Your task to perform on an android device: turn on notifications settings in the gmail app Image 0: 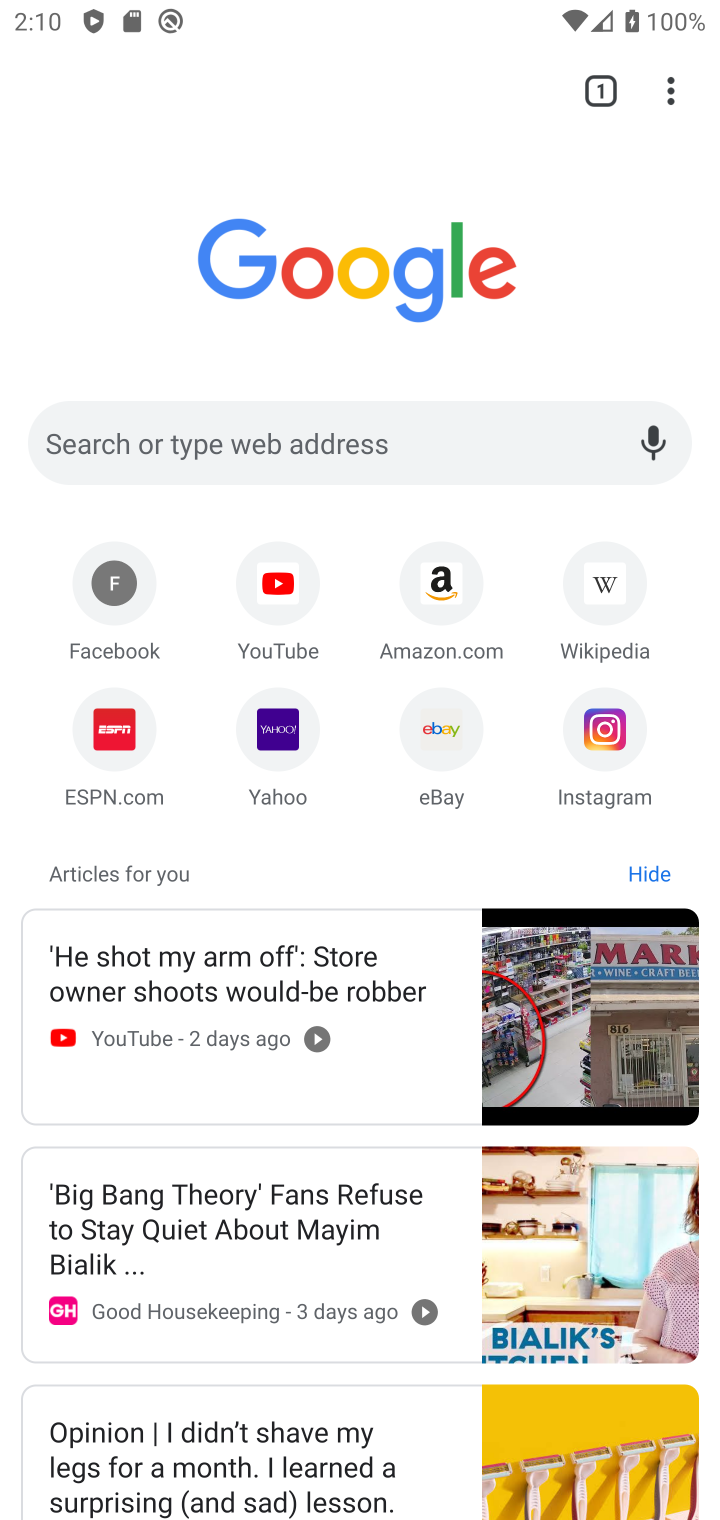
Step 0: press back button
Your task to perform on an android device: turn on notifications settings in the gmail app Image 1: 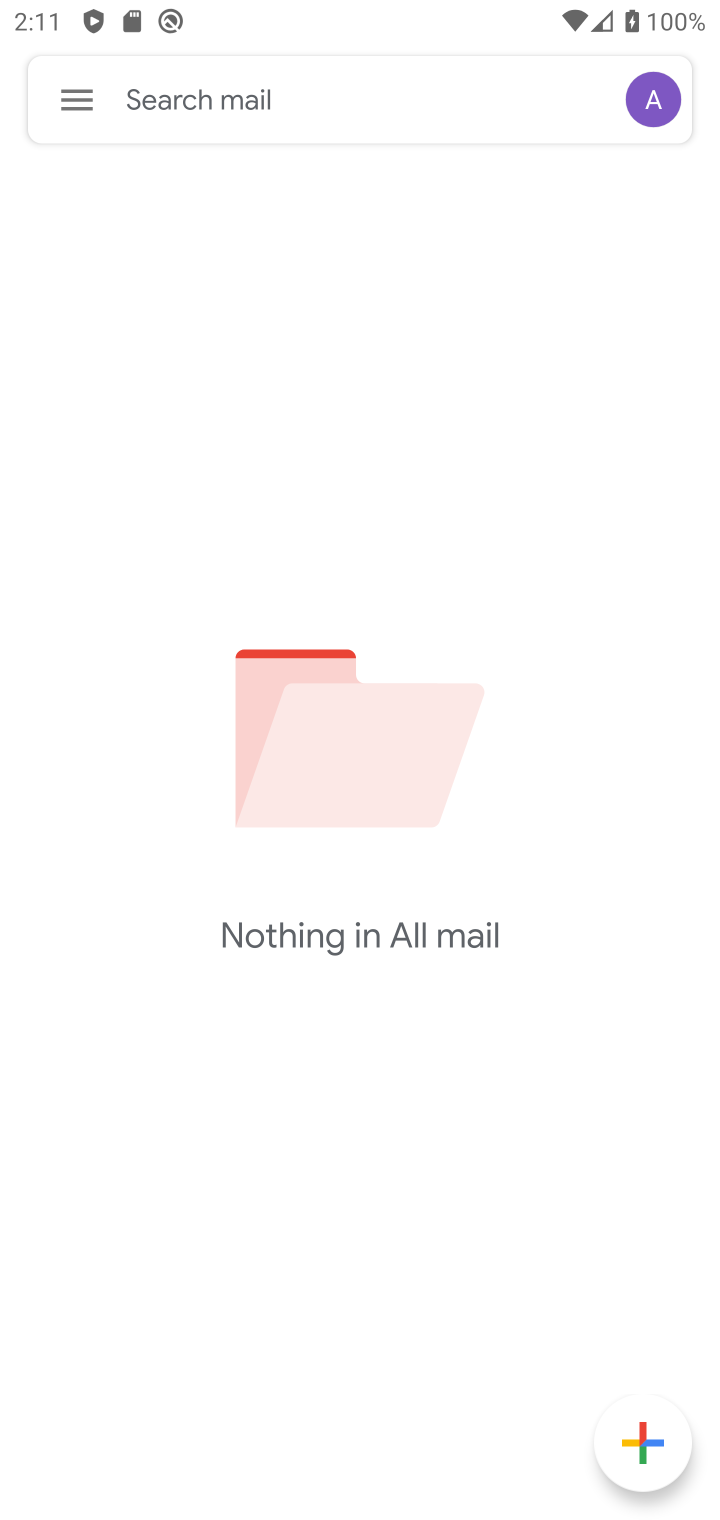
Step 1: click (48, 82)
Your task to perform on an android device: turn on notifications settings in the gmail app Image 2: 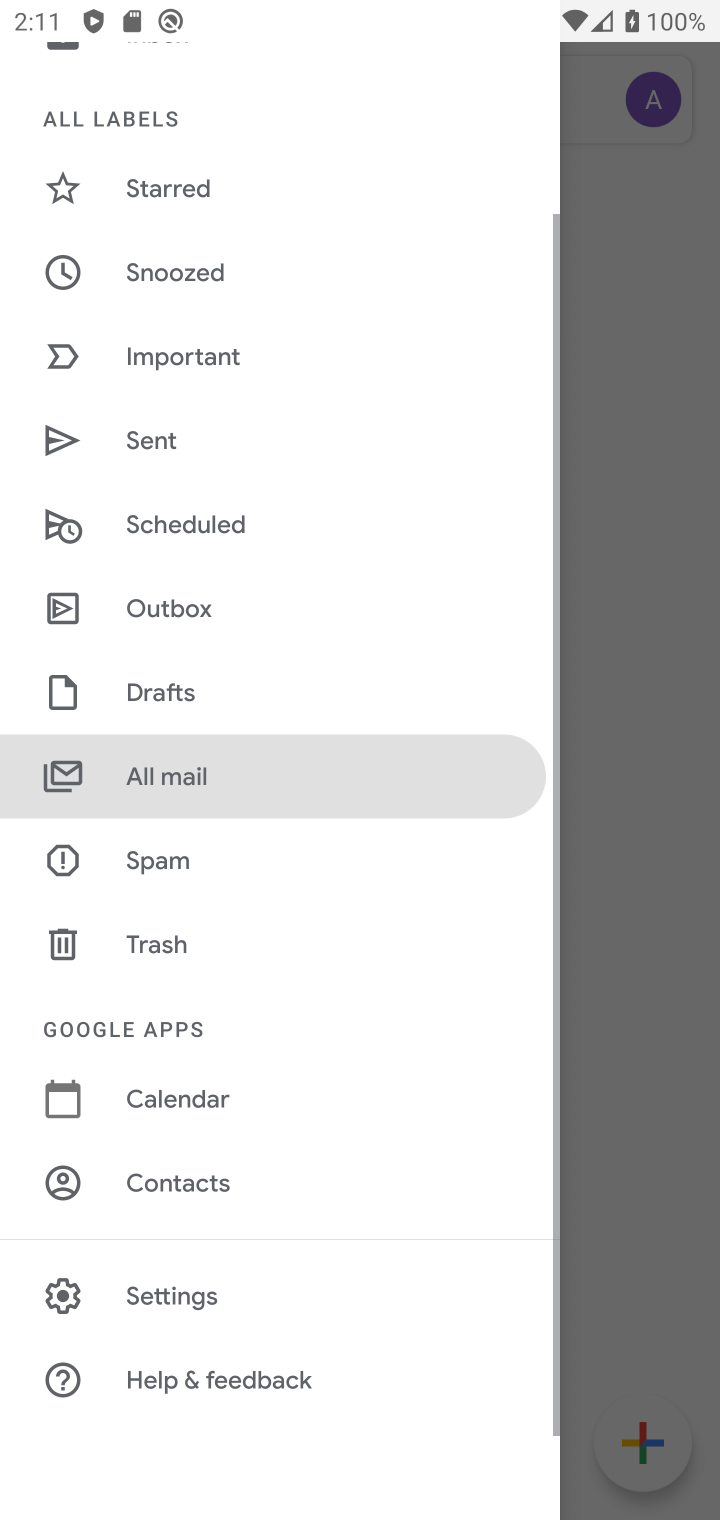
Step 2: press back button
Your task to perform on an android device: turn on notifications settings in the gmail app Image 3: 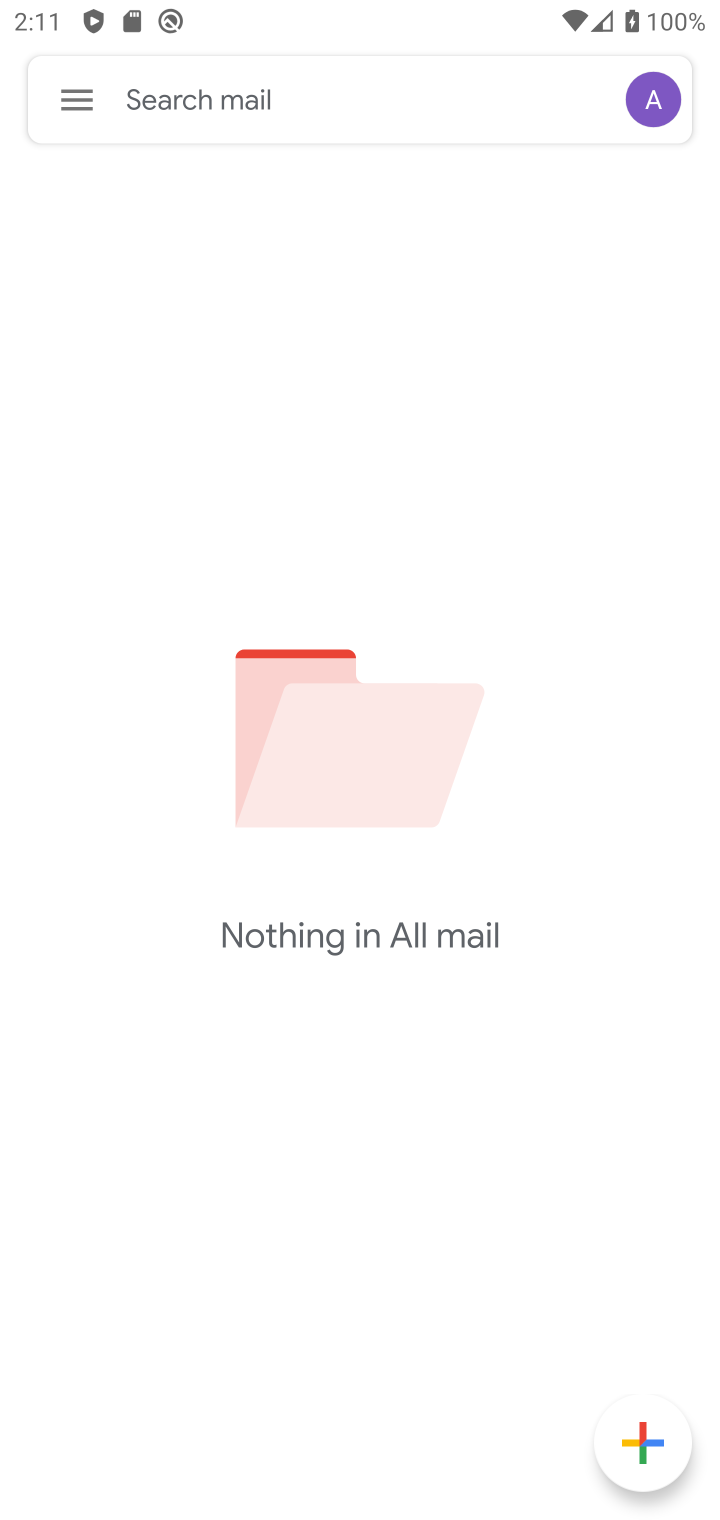
Step 3: click (62, 96)
Your task to perform on an android device: turn on notifications settings in the gmail app Image 4: 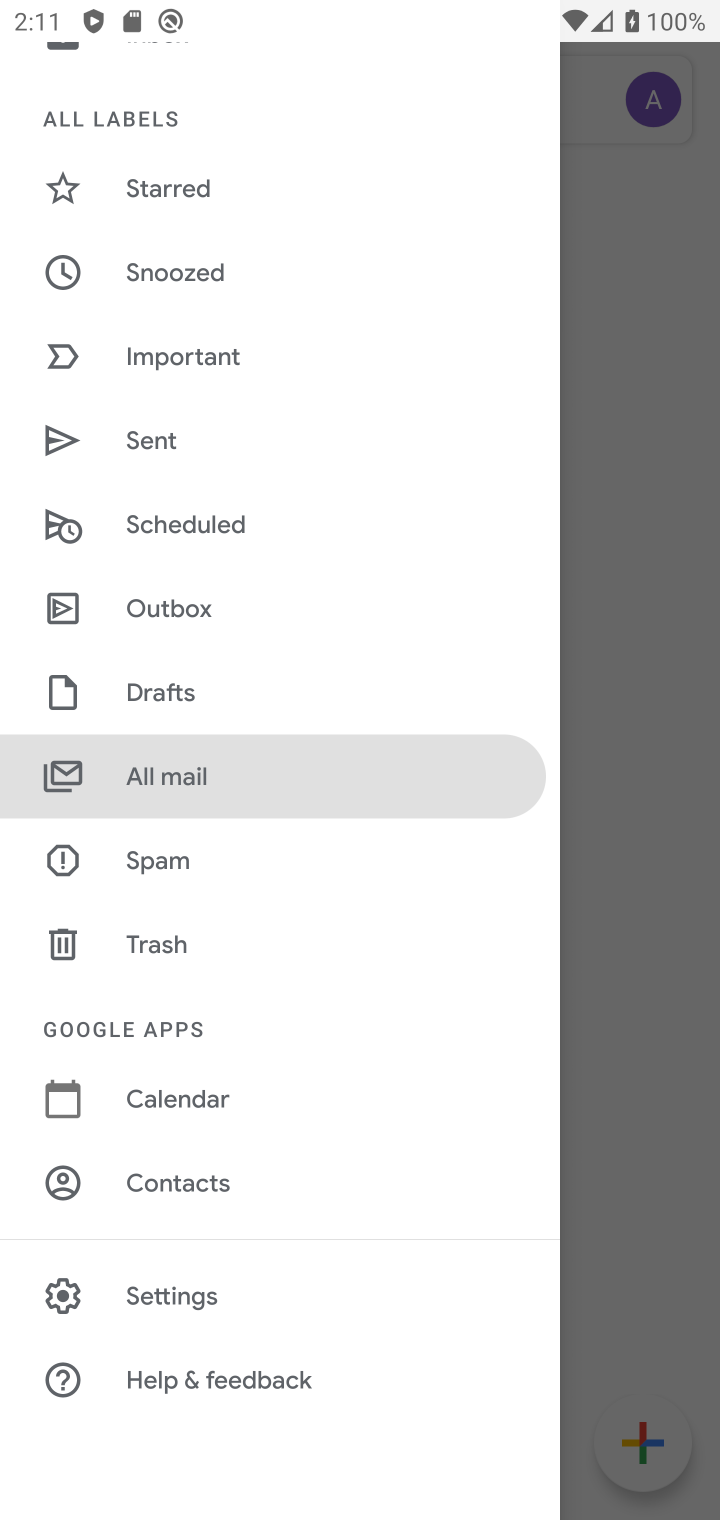
Step 4: click (600, 748)
Your task to perform on an android device: turn on notifications settings in the gmail app Image 5: 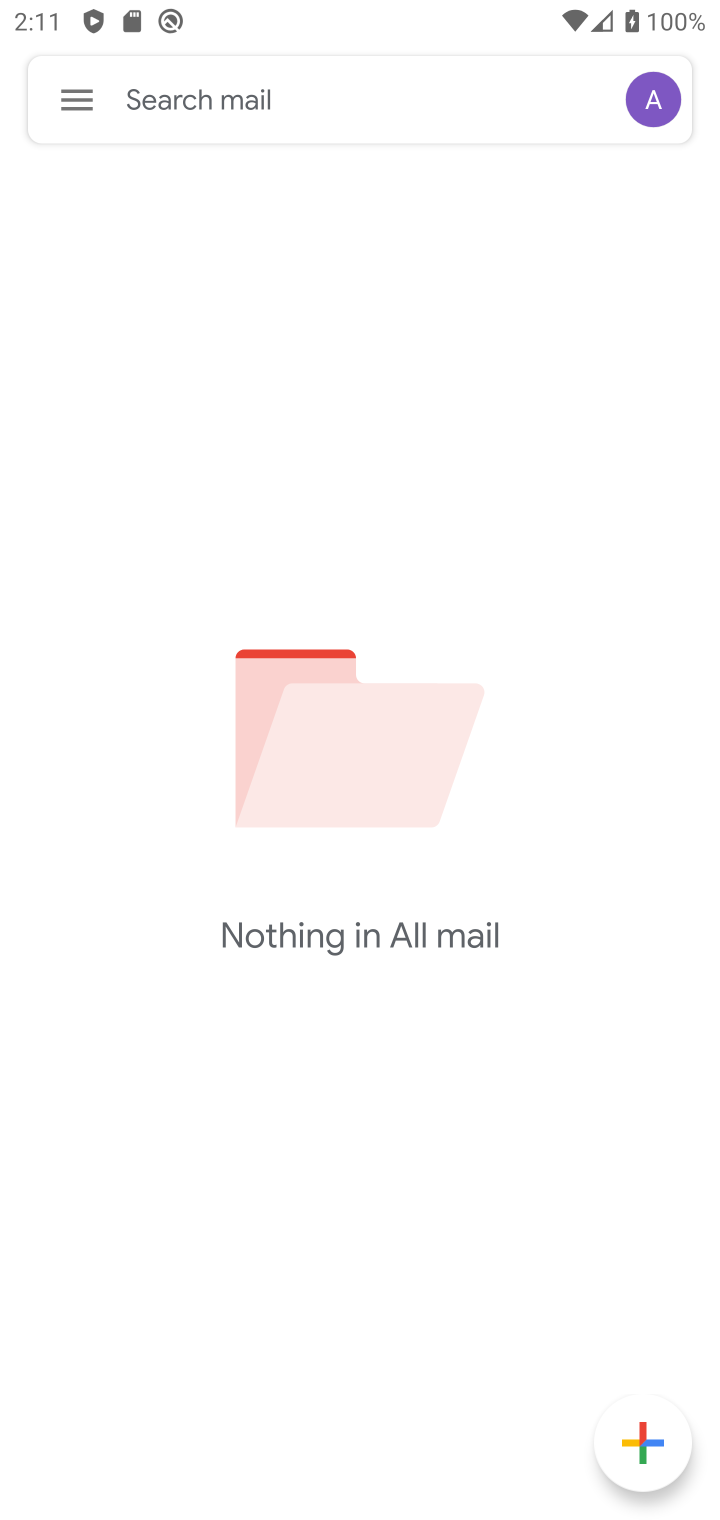
Step 5: press back button
Your task to perform on an android device: turn on notifications settings in the gmail app Image 6: 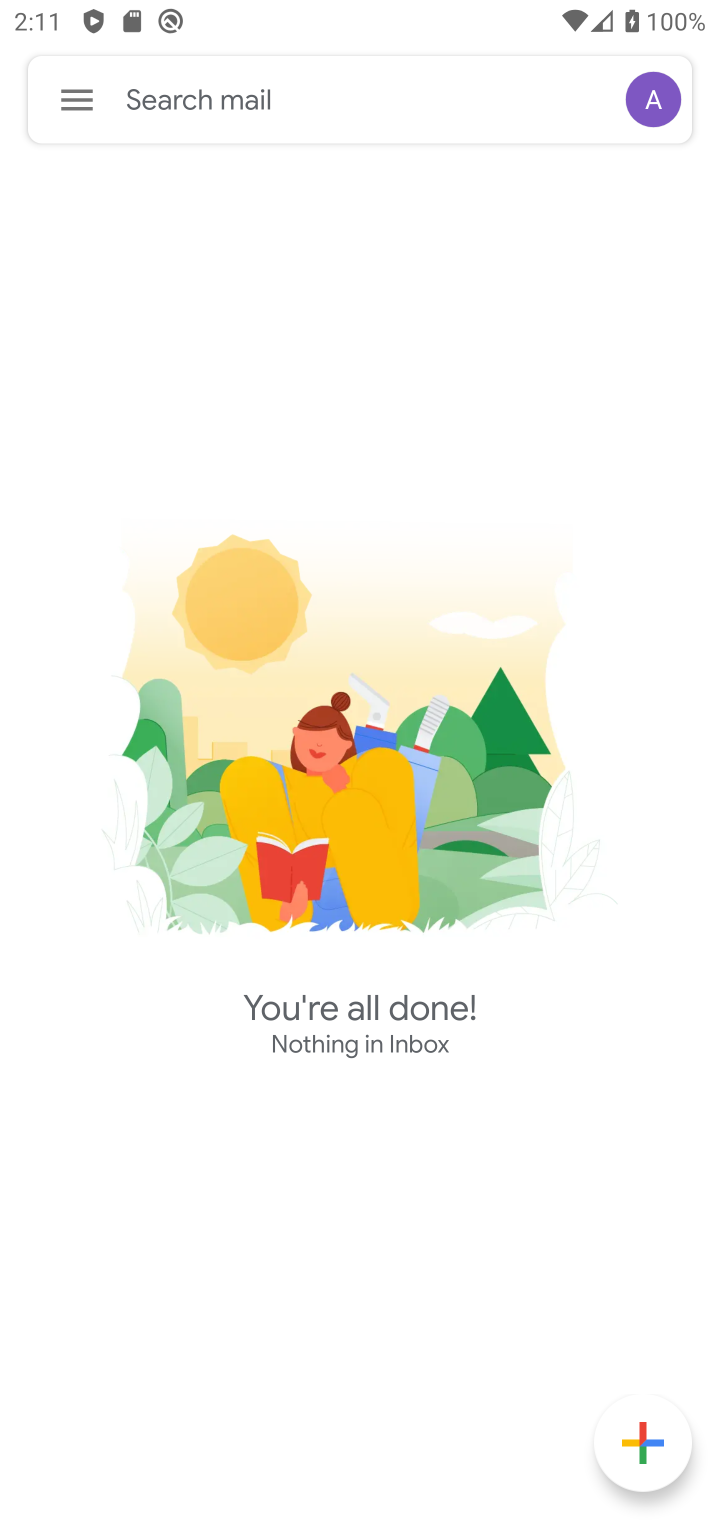
Step 6: press back button
Your task to perform on an android device: turn on notifications settings in the gmail app Image 7: 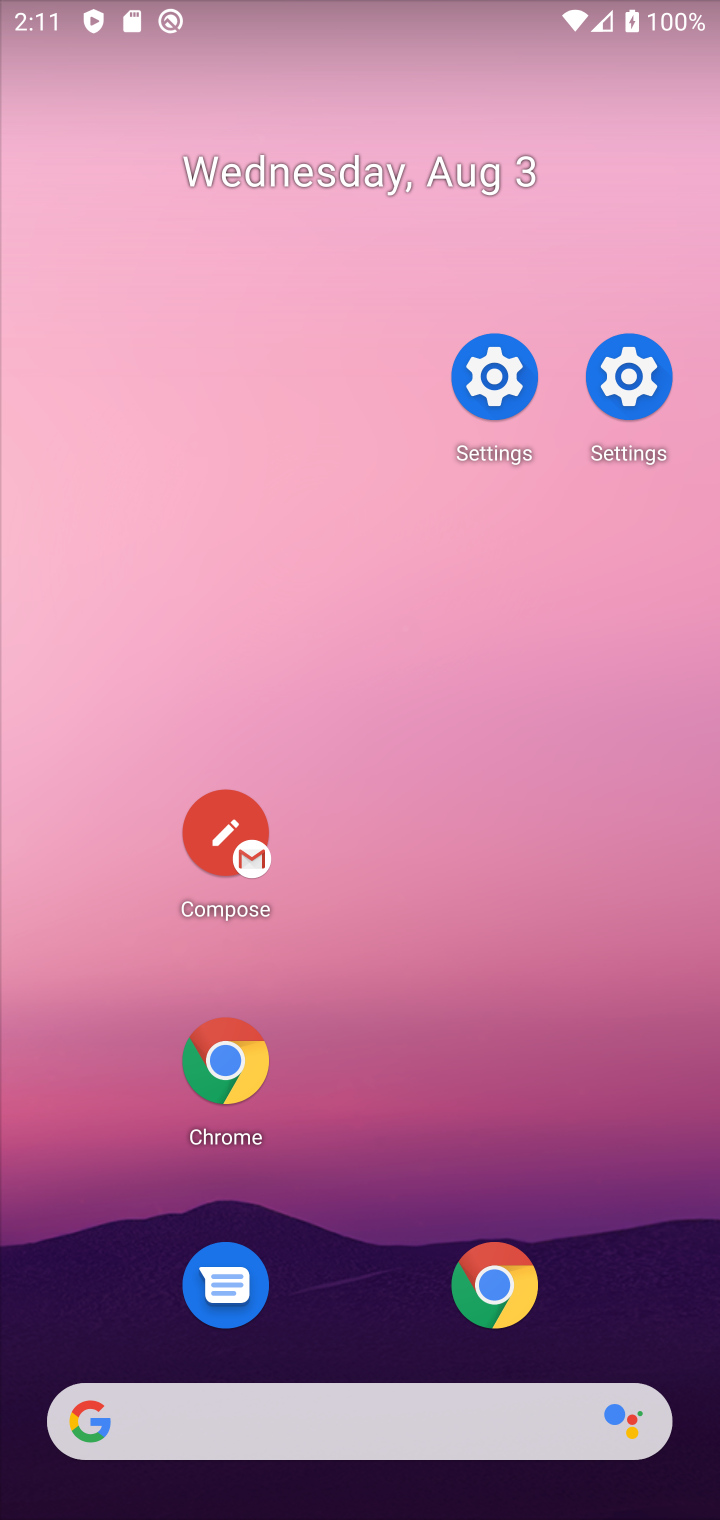
Step 7: drag from (231, 531) to (395, 239)
Your task to perform on an android device: turn on notifications settings in the gmail app Image 8: 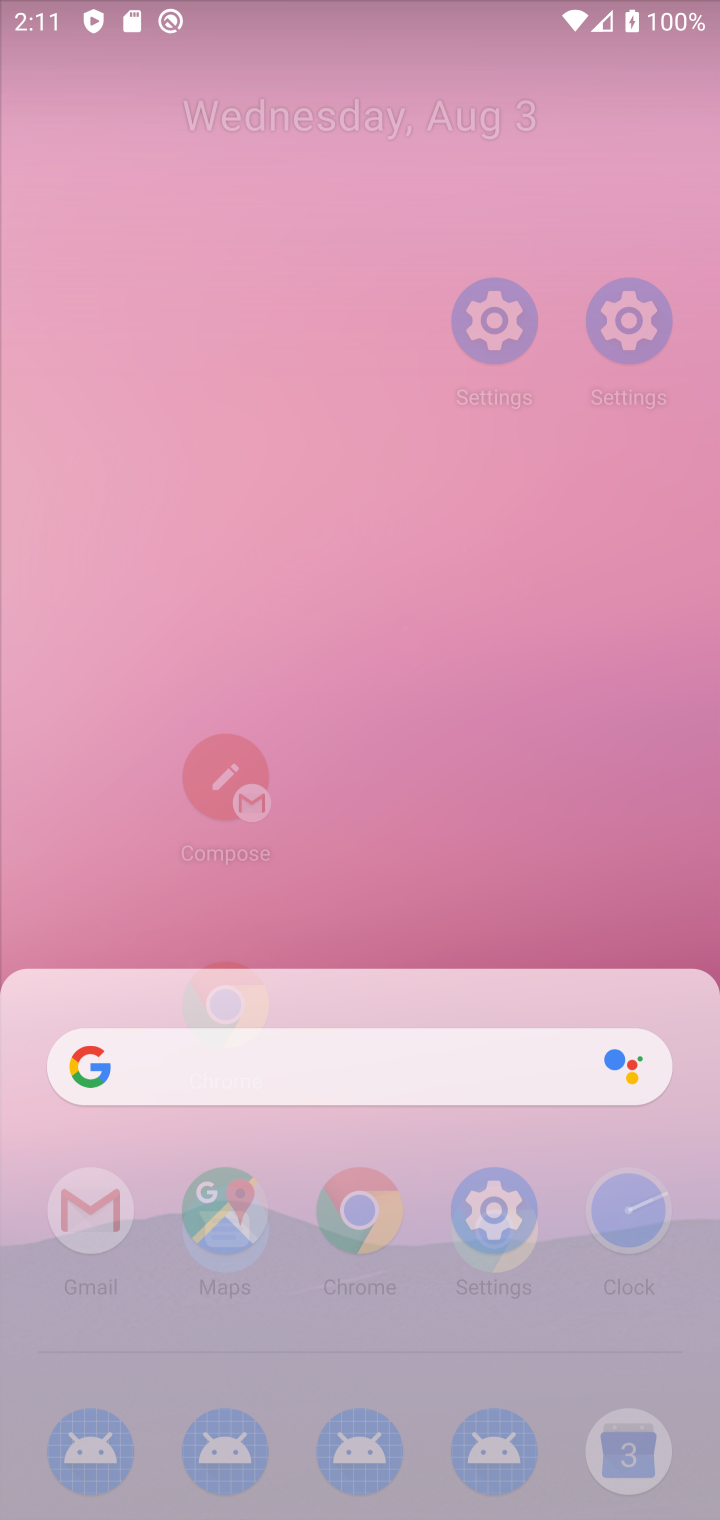
Step 8: click (261, 300)
Your task to perform on an android device: turn on notifications settings in the gmail app Image 9: 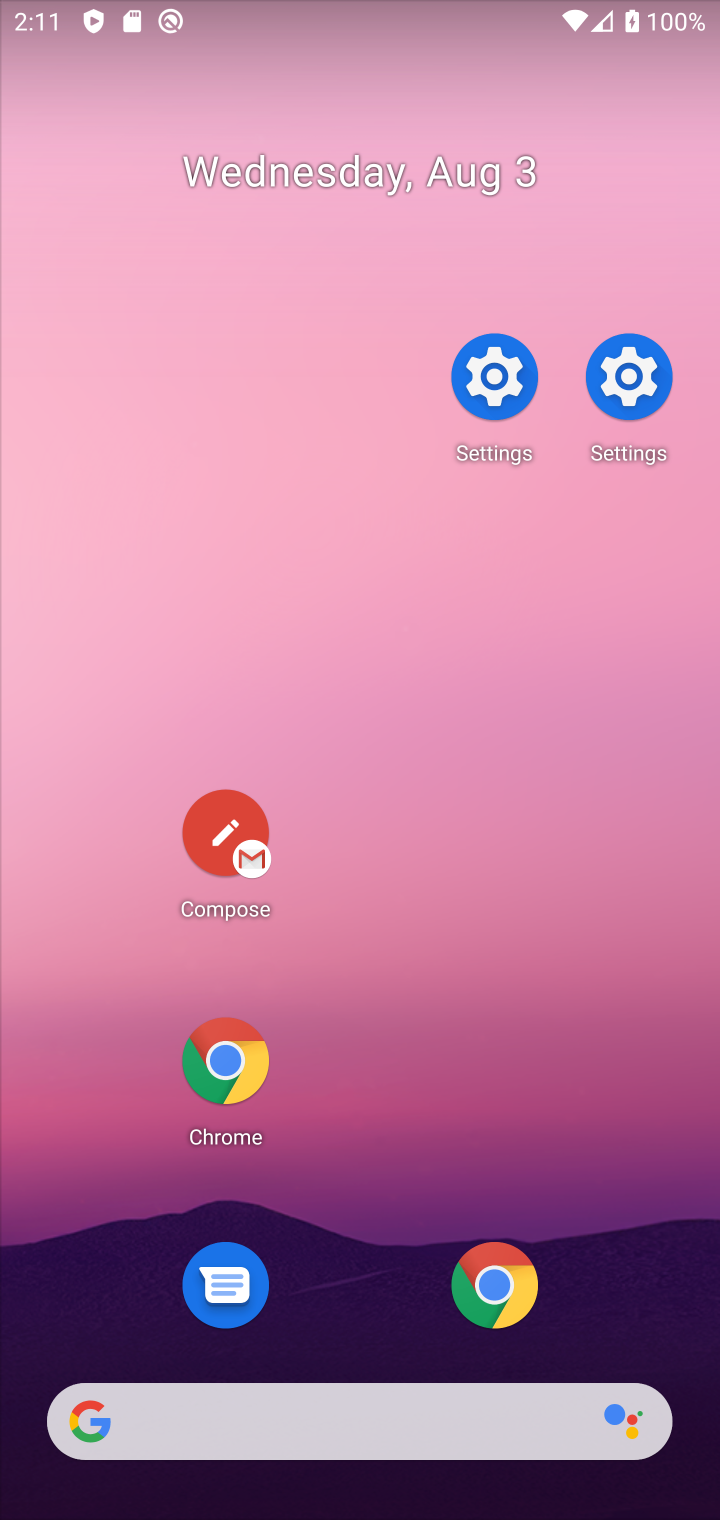
Step 9: drag from (245, 718) to (274, 112)
Your task to perform on an android device: turn on notifications settings in the gmail app Image 10: 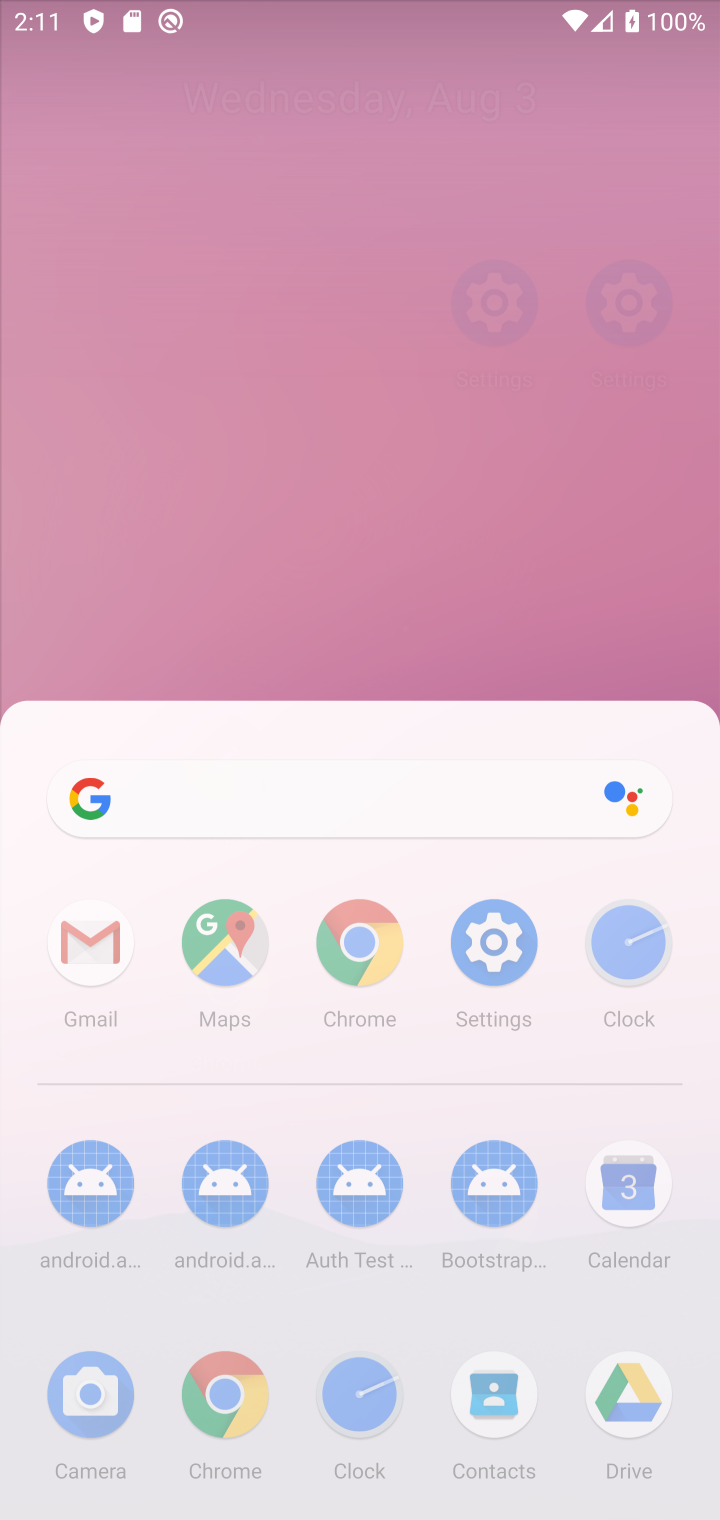
Step 10: drag from (285, 667) to (307, 304)
Your task to perform on an android device: turn on notifications settings in the gmail app Image 11: 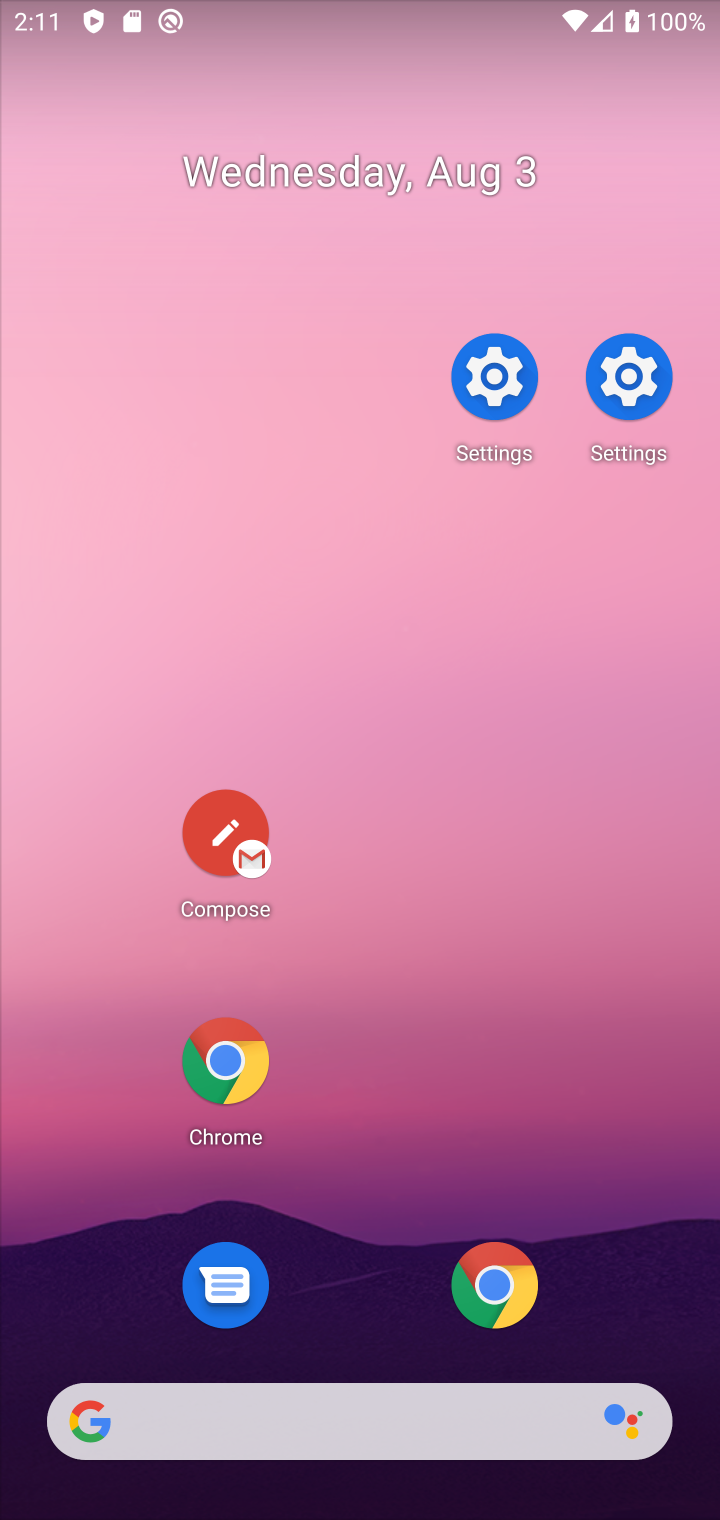
Step 11: drag from (269, 447) to (412, 341)
Your task to perform on an android device: turn on notifications settings in the gmail app Image 12: 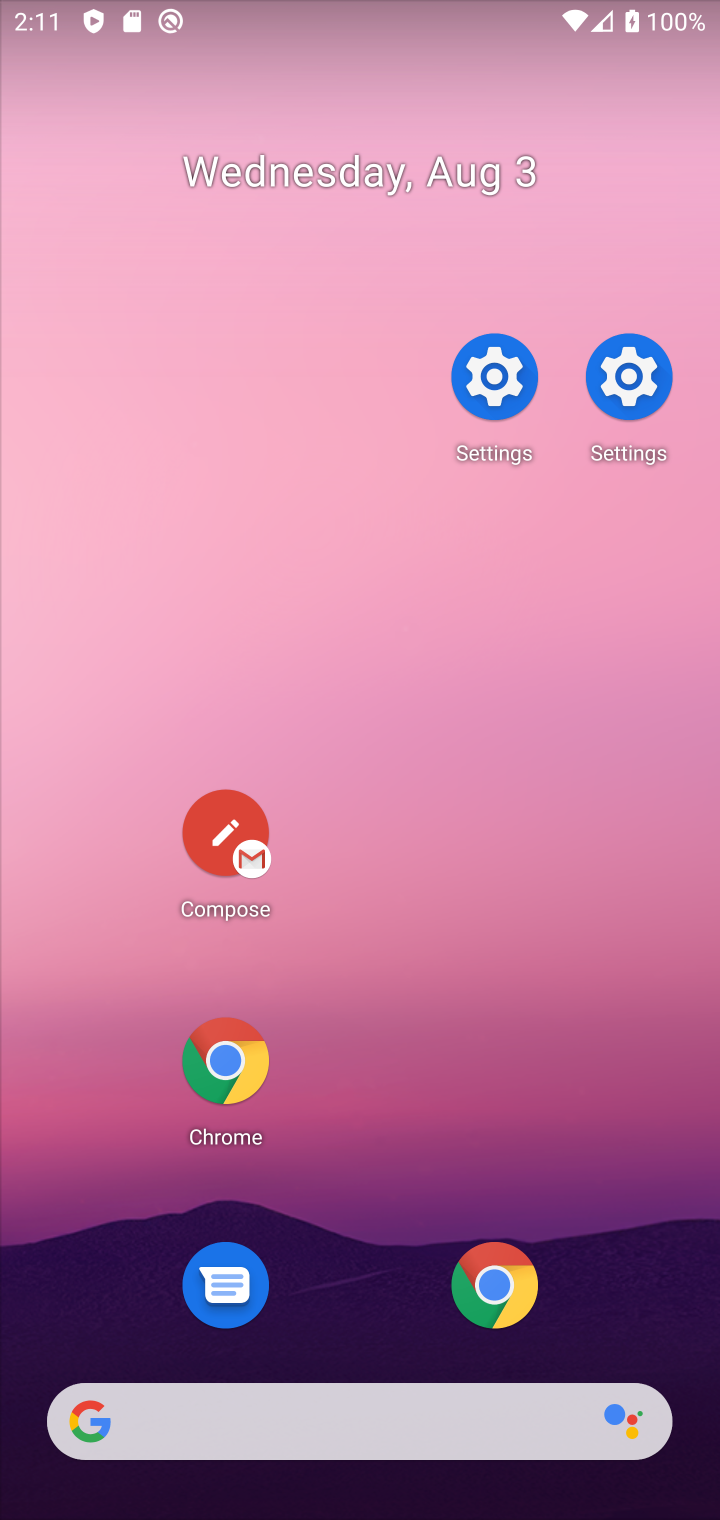
Step 12: drag from (52, 339) to (206, 341)
Your task to perform on an android device: turn on notifications settings in the gmail app Image 13: 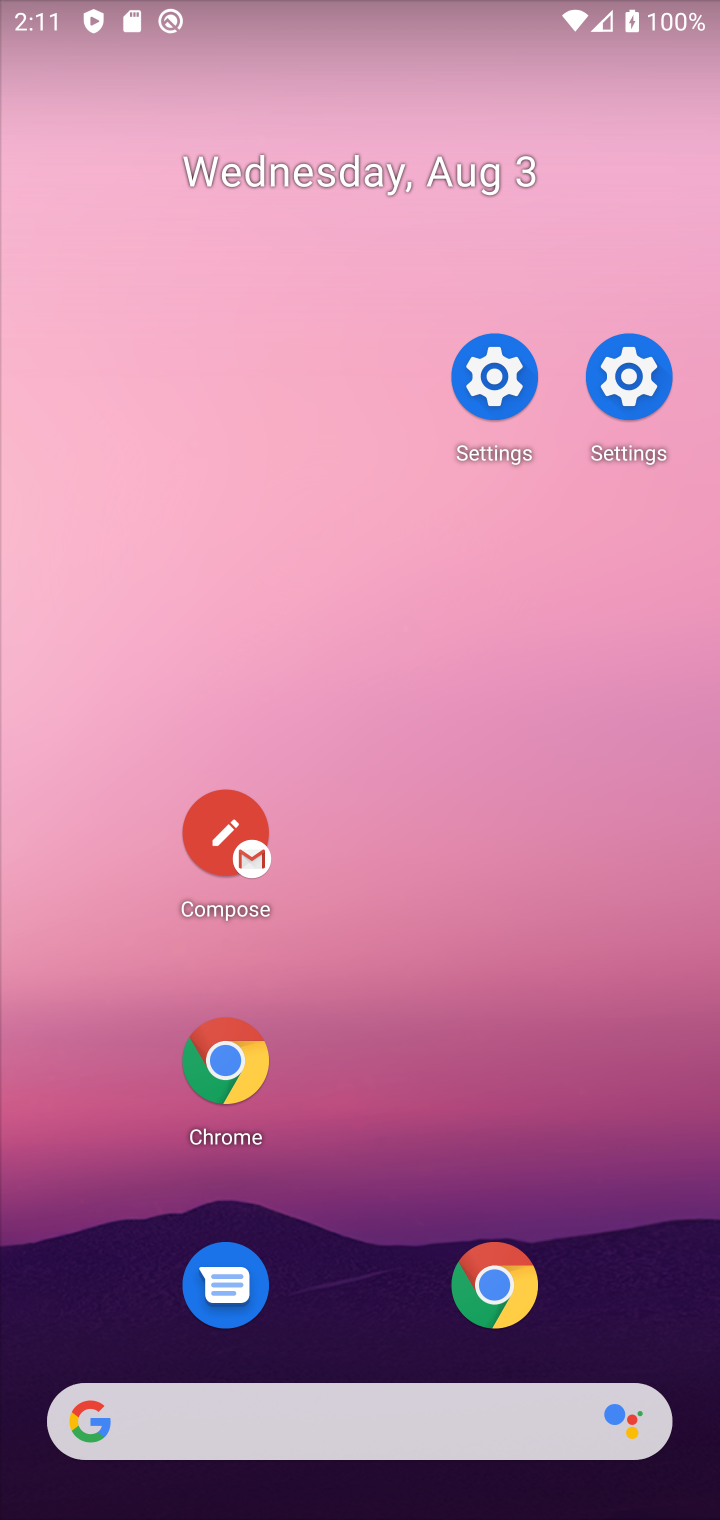
Step 13: drag from (264, 147) to (351, 516)
Your task to perform on an android device: turn on notifications settings in the gmail app Image 14: 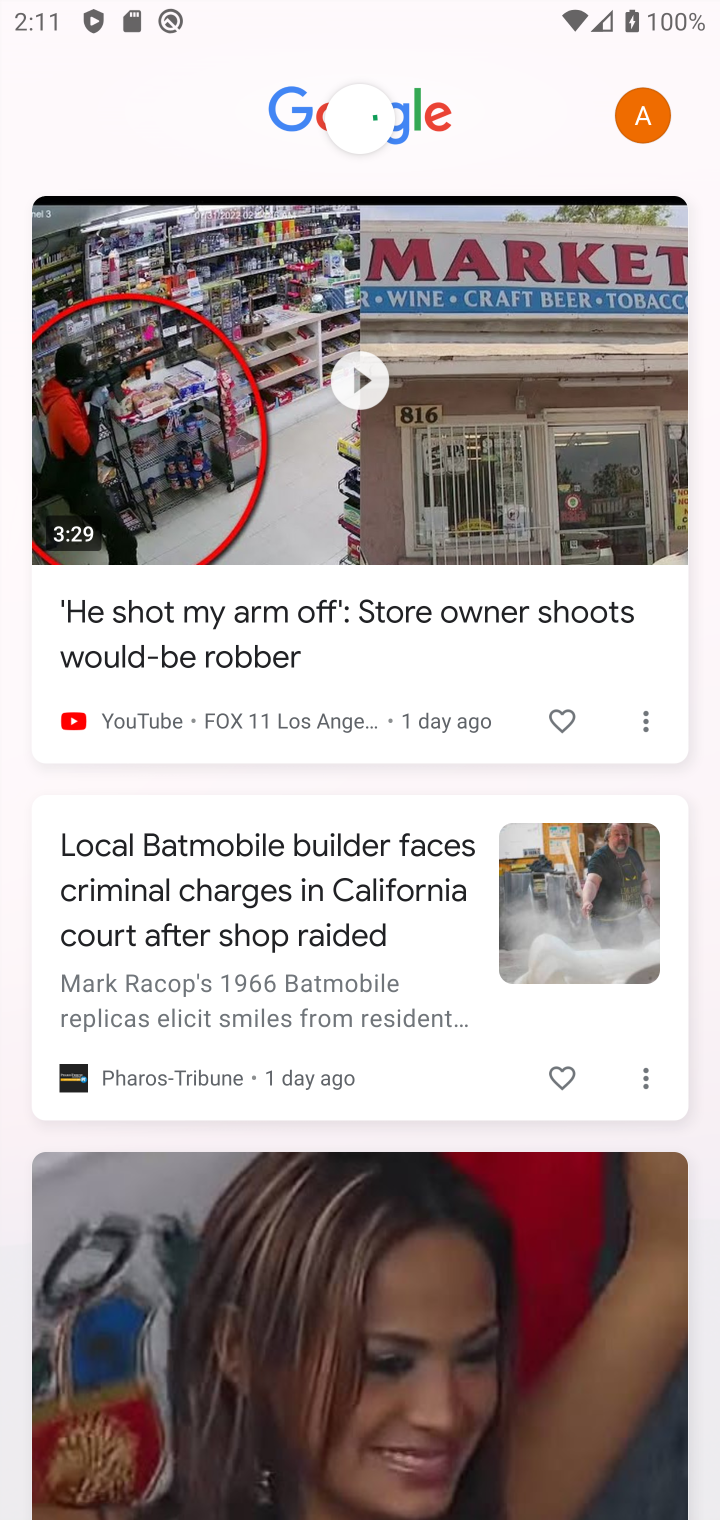
Step 14: press back button
Your task to perform on an android device: turn on notifications settings in the gmail app Image 15: 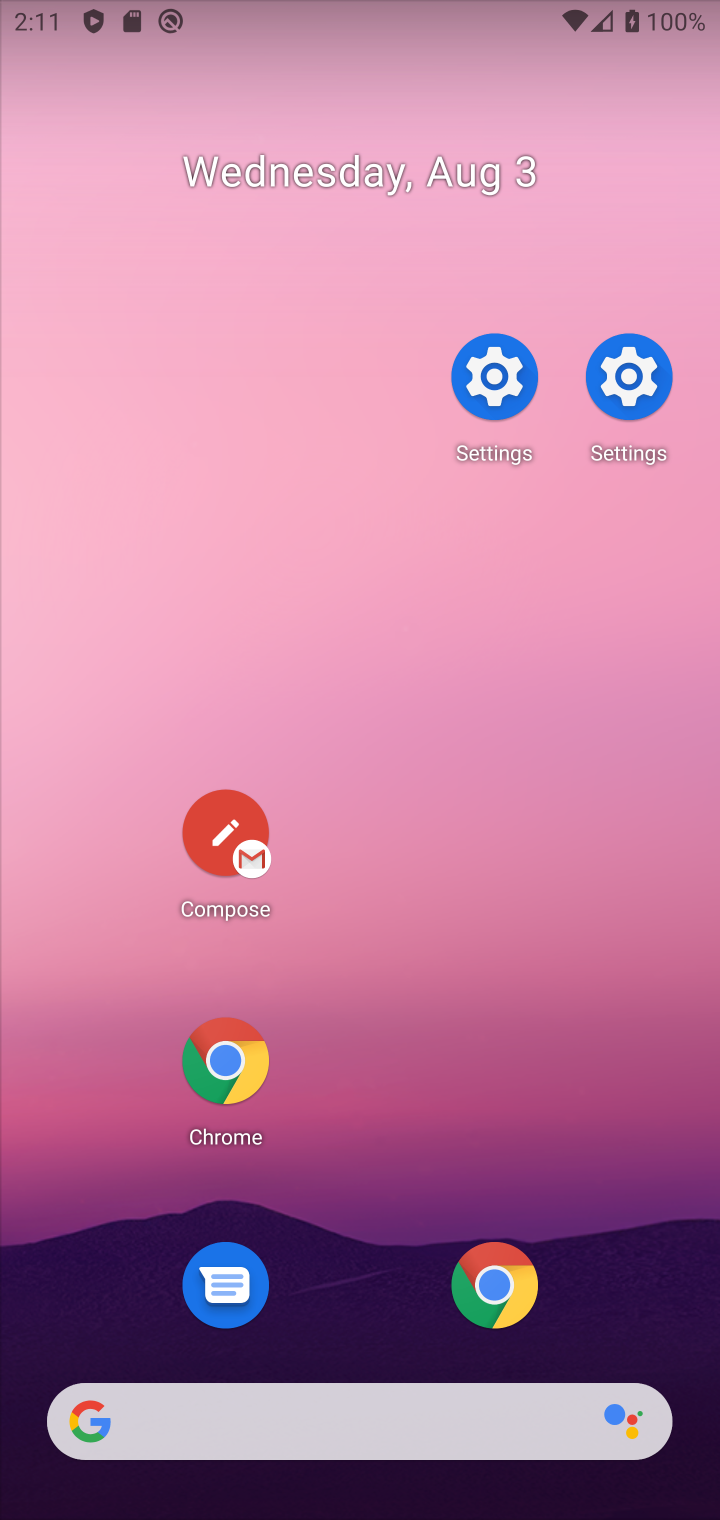
Step 15: press back button
Your task to perform on an android device: turn on notifications settings in the gmail app Image 16: 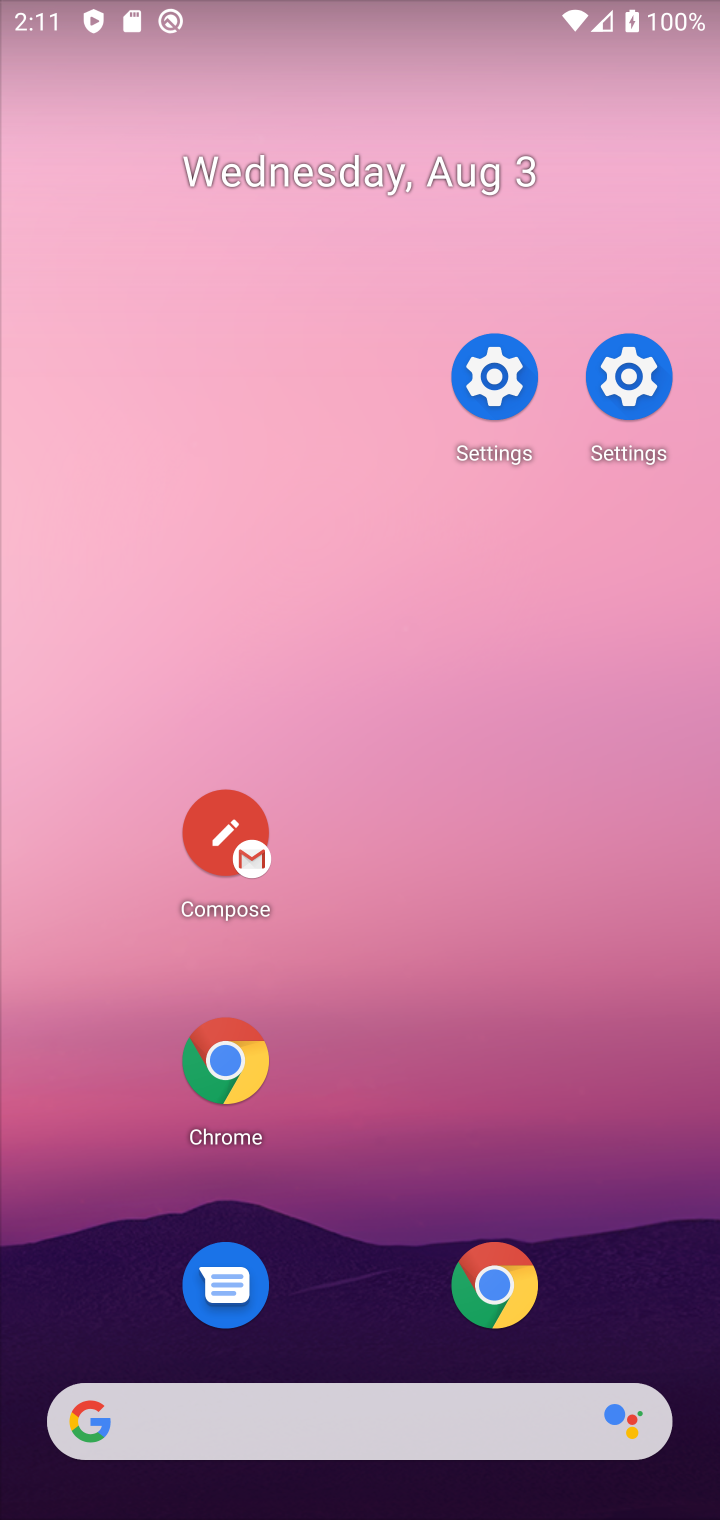
Step 16: press home button
Your task to perform on an android device: turn on notifications settings in the gmail app Image 17: 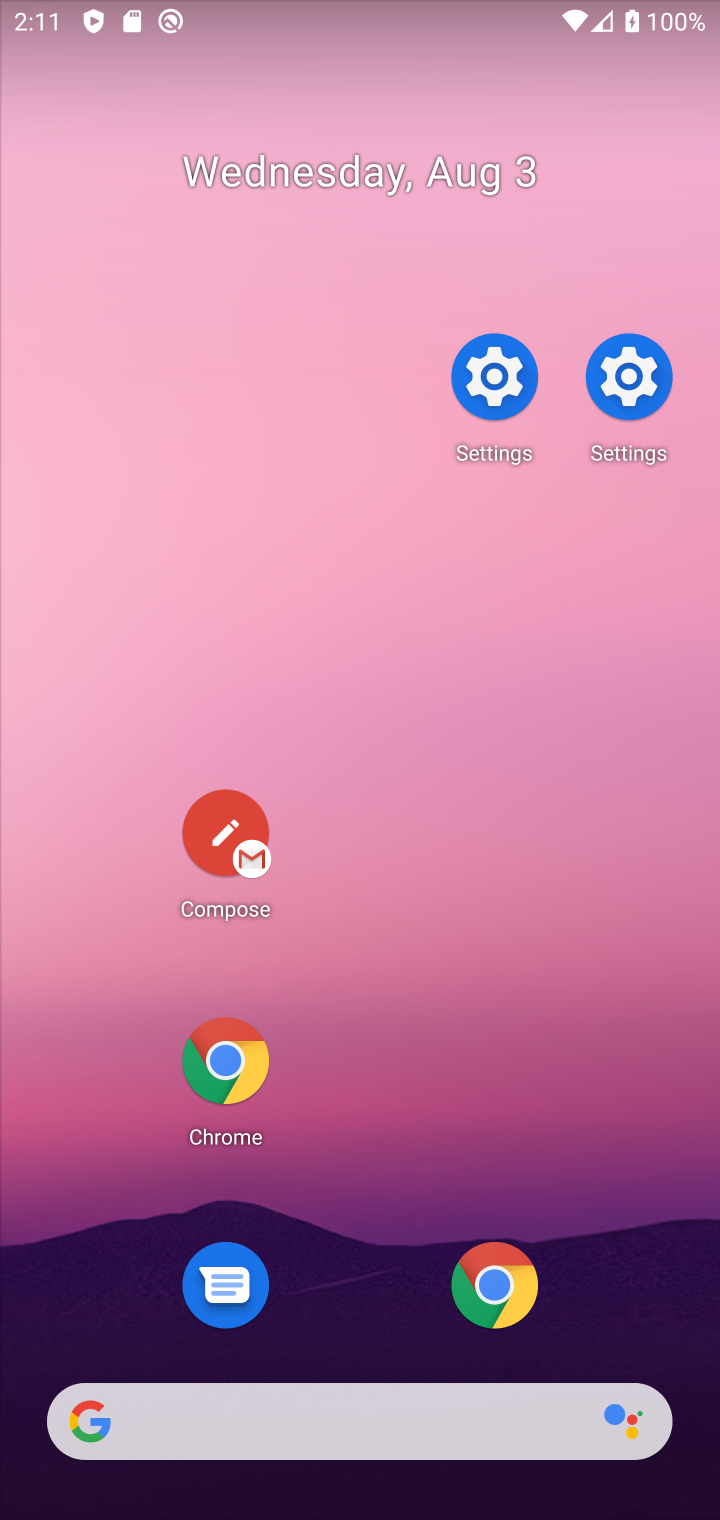
Step 17: drag from (261, 369) to (415, 286)
Your task to perform on an android device: turn on notifications settings in the gmail app Image 18: 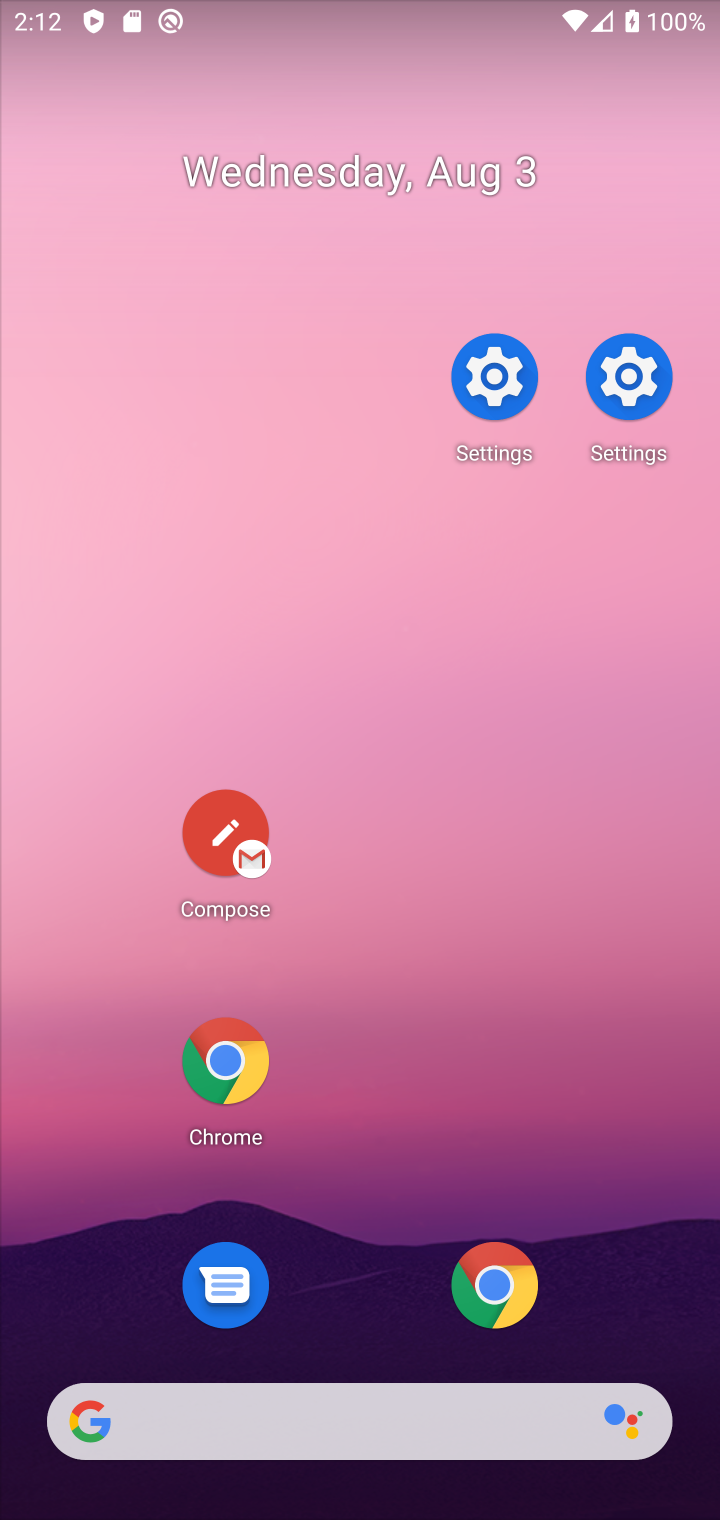
Step 18: click (303, 264)
Your task to perform on an android device: turn on notifications settings in the gmail app Image 19: 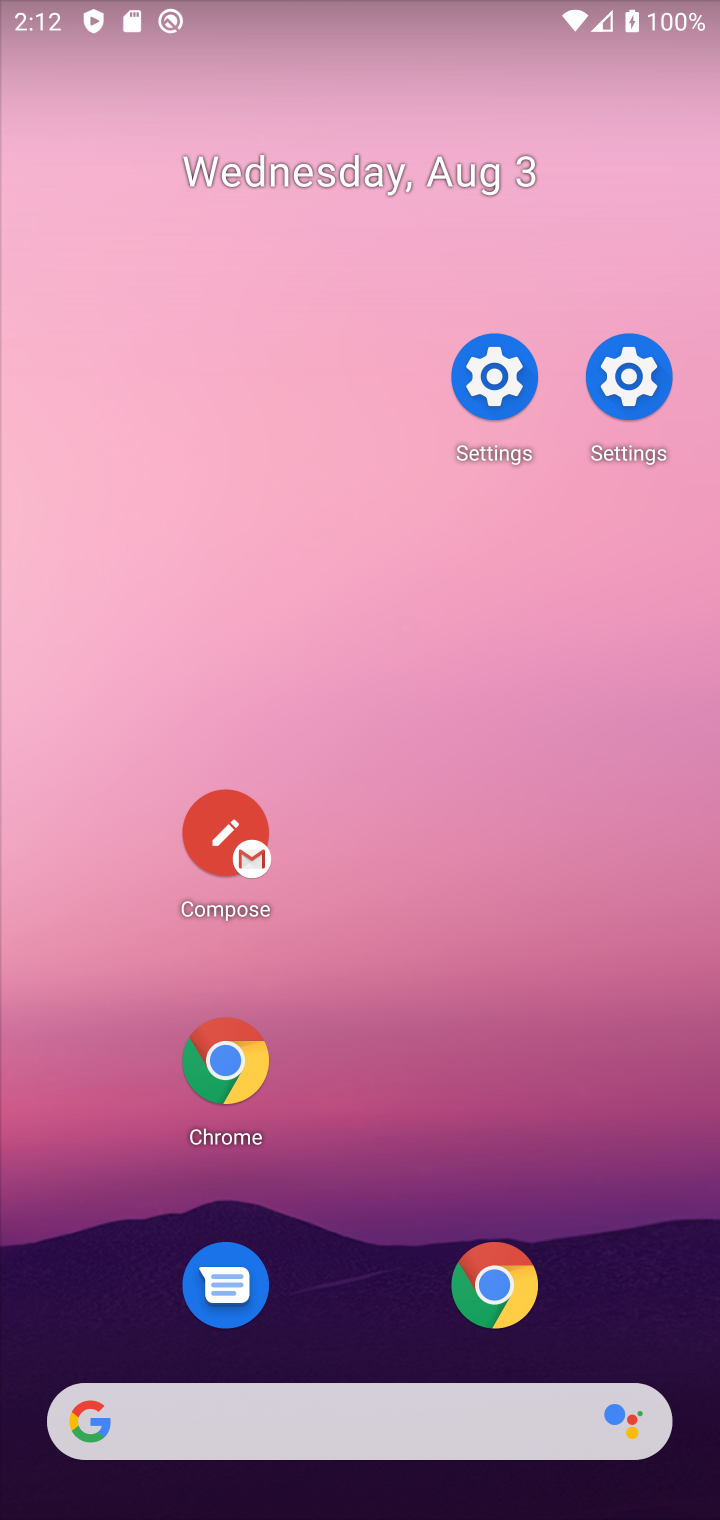
Step 19: drag from (288, 271) to (152, 75)
Your task to perform on an android device: turn on notifications settings in the gmail app Image 20: 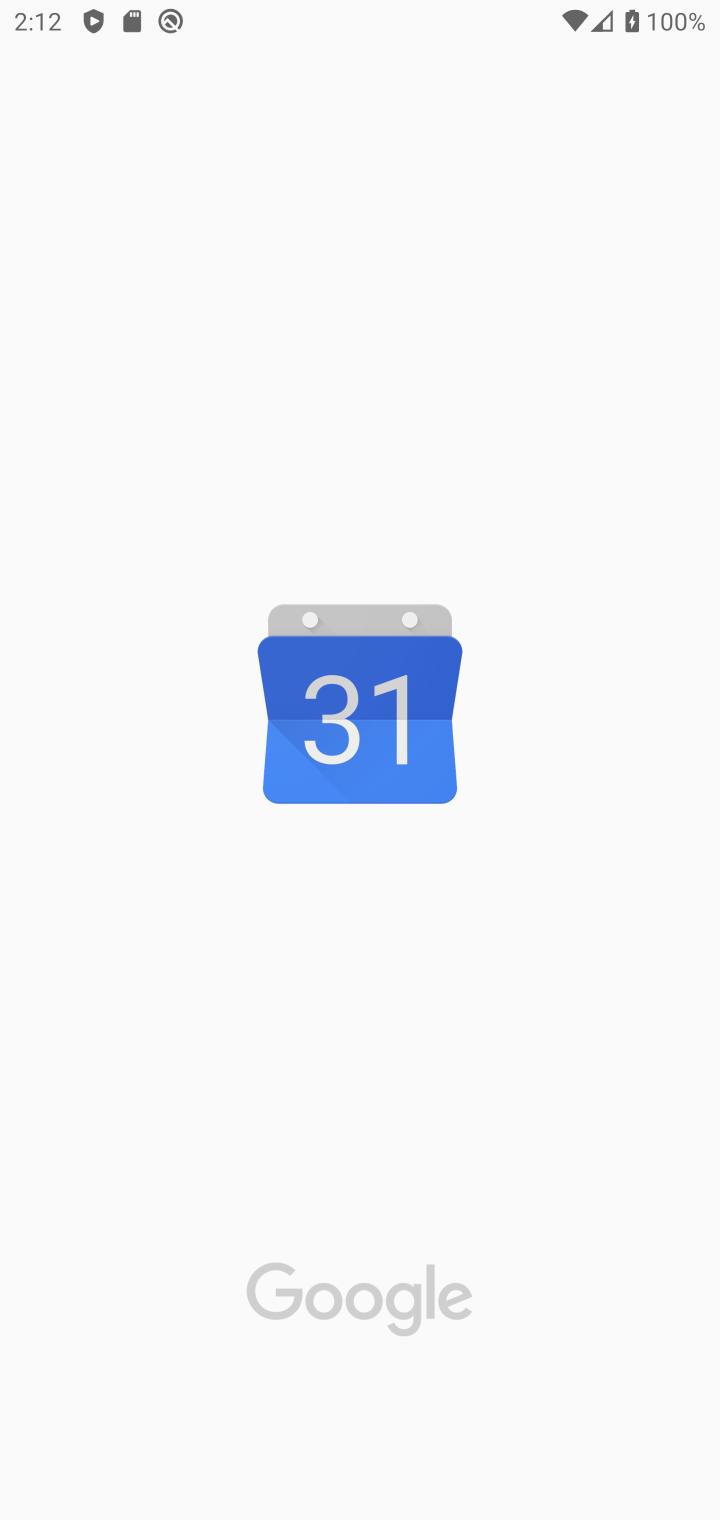
Step 20: drag from (356, 764) to (251, 324)
Your task to perform on an android device: turn on notifications settings in the gmail app Image 21: 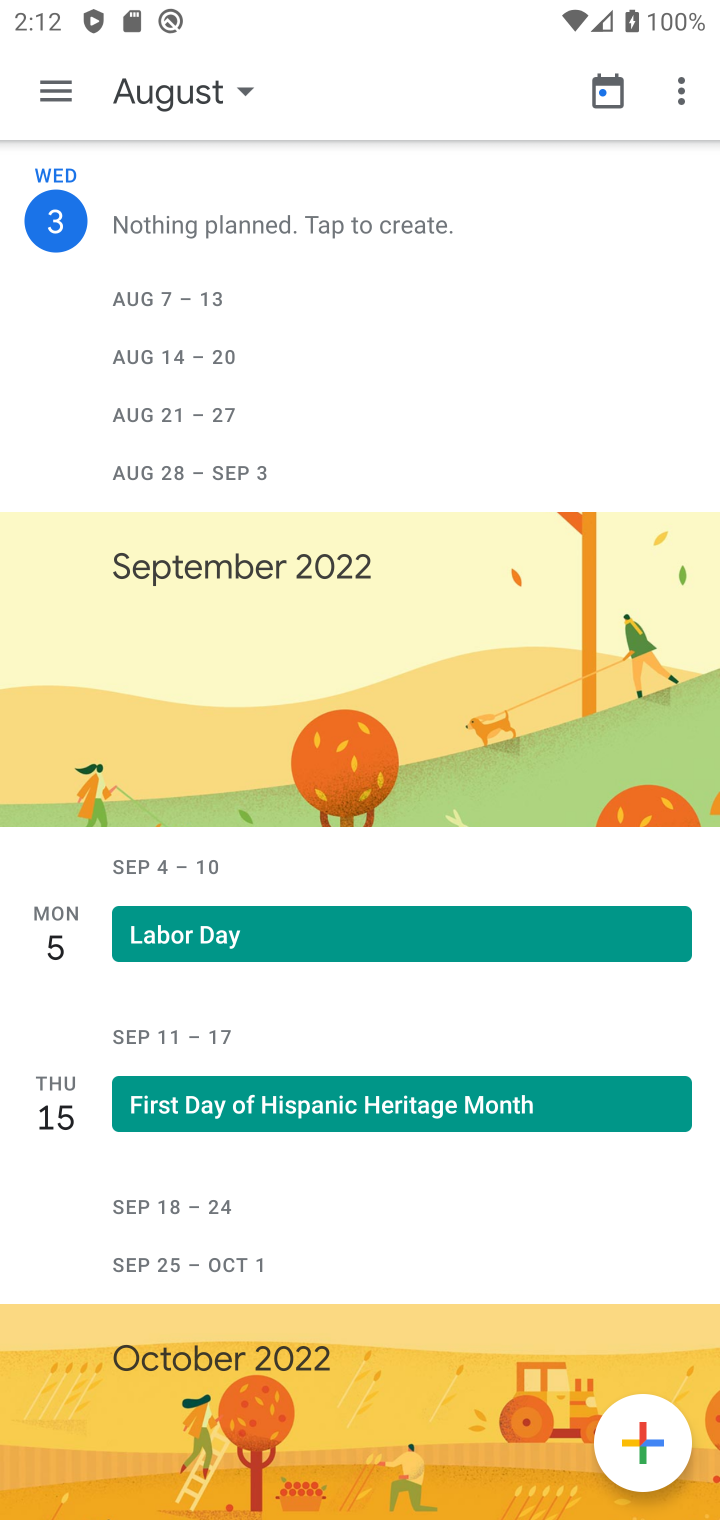
Step 21: press back button
Your task to perform on an android device: turn on notifications settings in the gmail app Image 22: 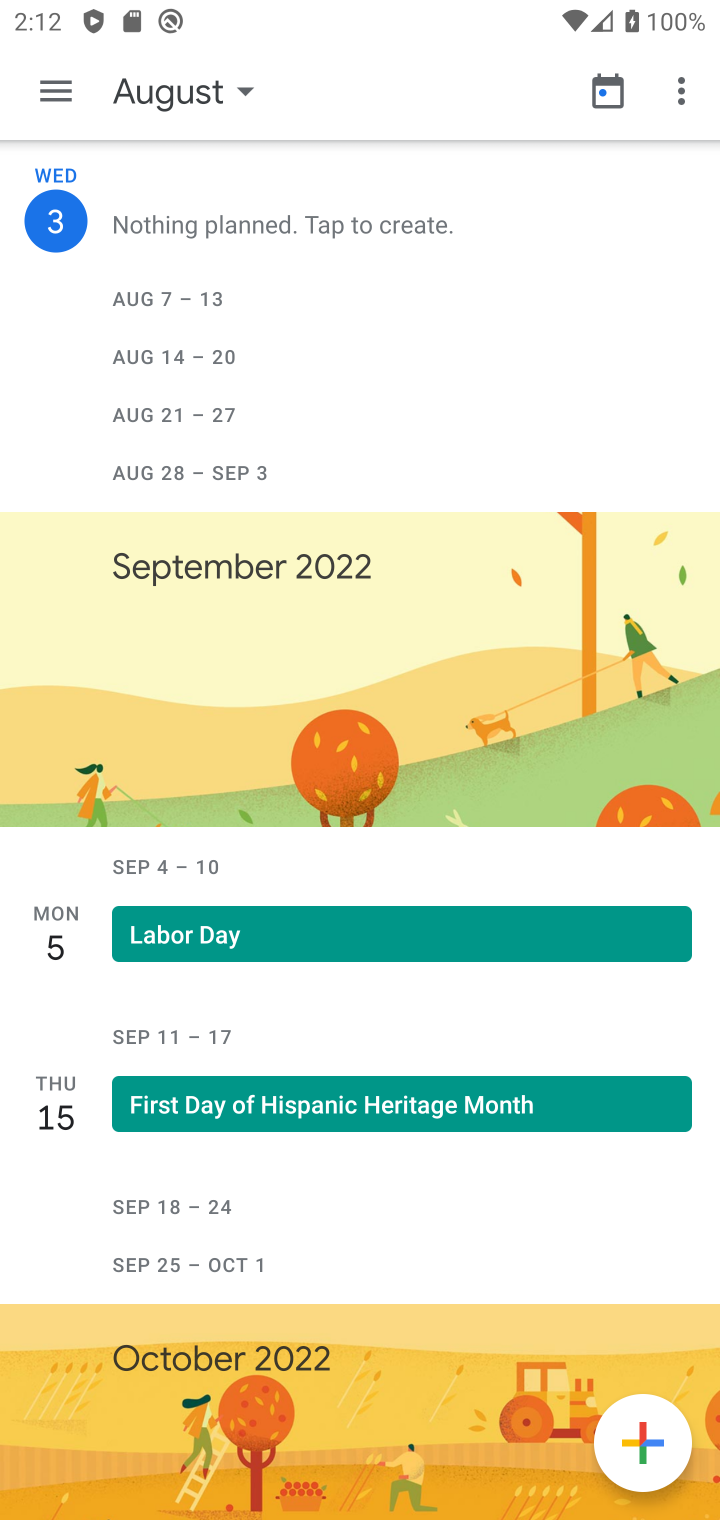
Step 22: press back button
Your task to perform on an android device: turn on notifications settings in the gmail app Image 23: 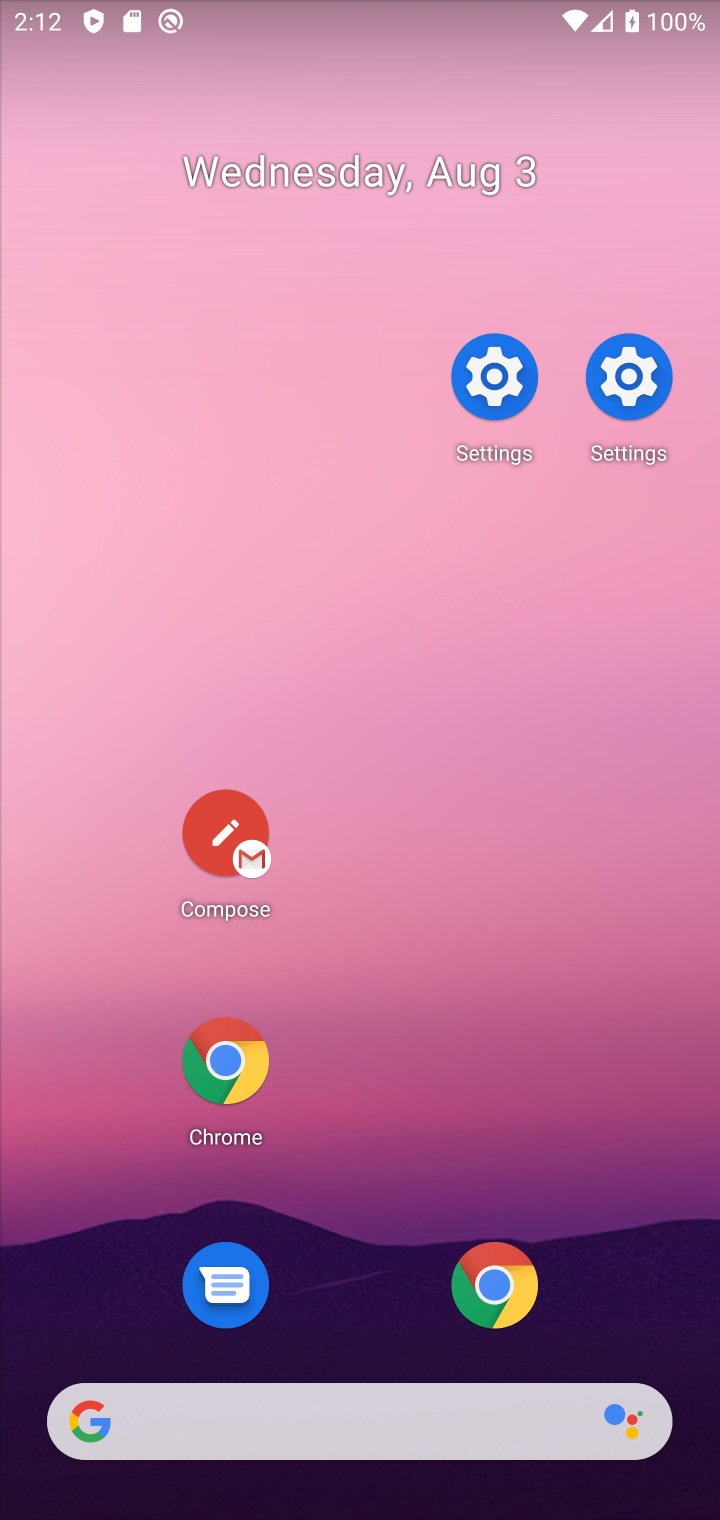
Step 23: press back button
Your task to perform on an android device: turn on notifications settings in the gmail app Image 24: 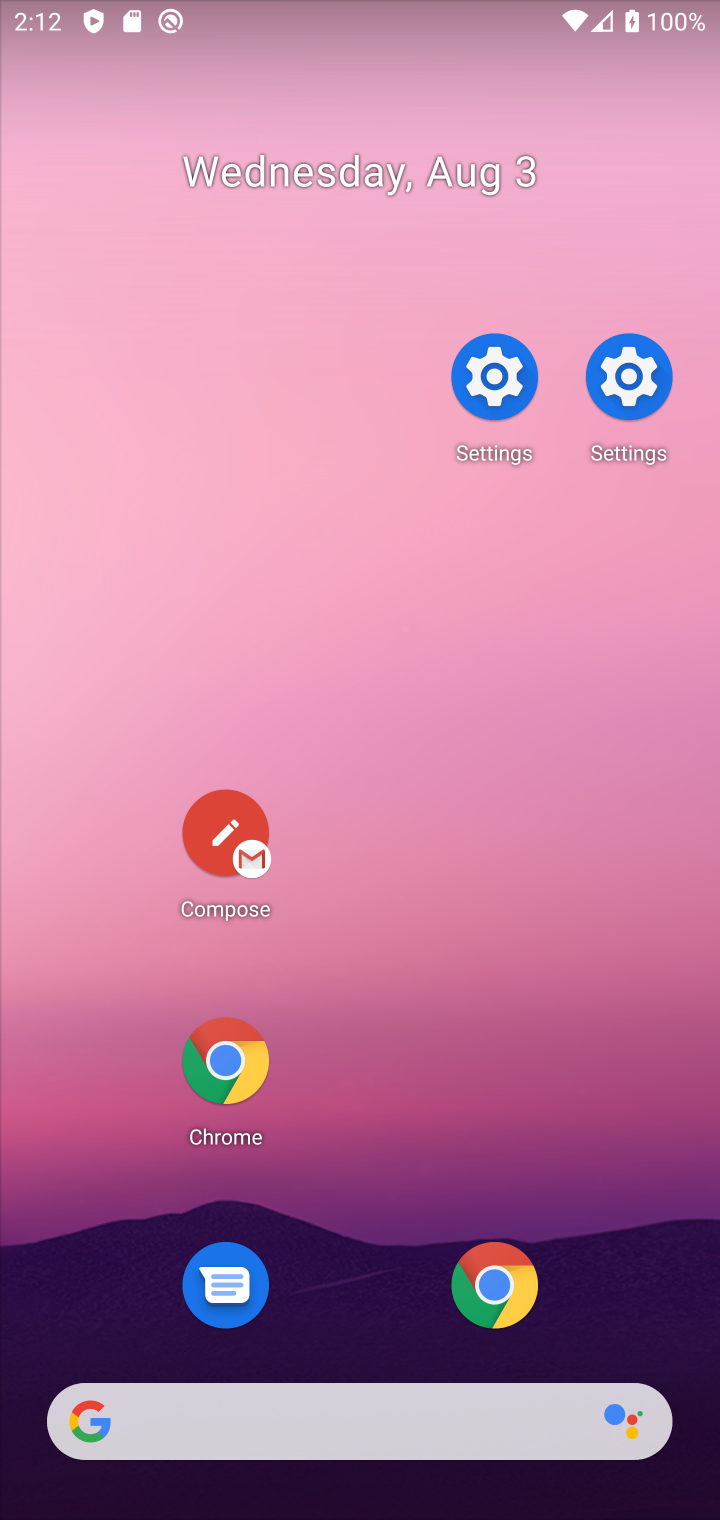
Step 24: drag from (388, 1266) to (324, 32)
Your task to perform on an android device: turn on notifications settings in the gmail app Image 25: 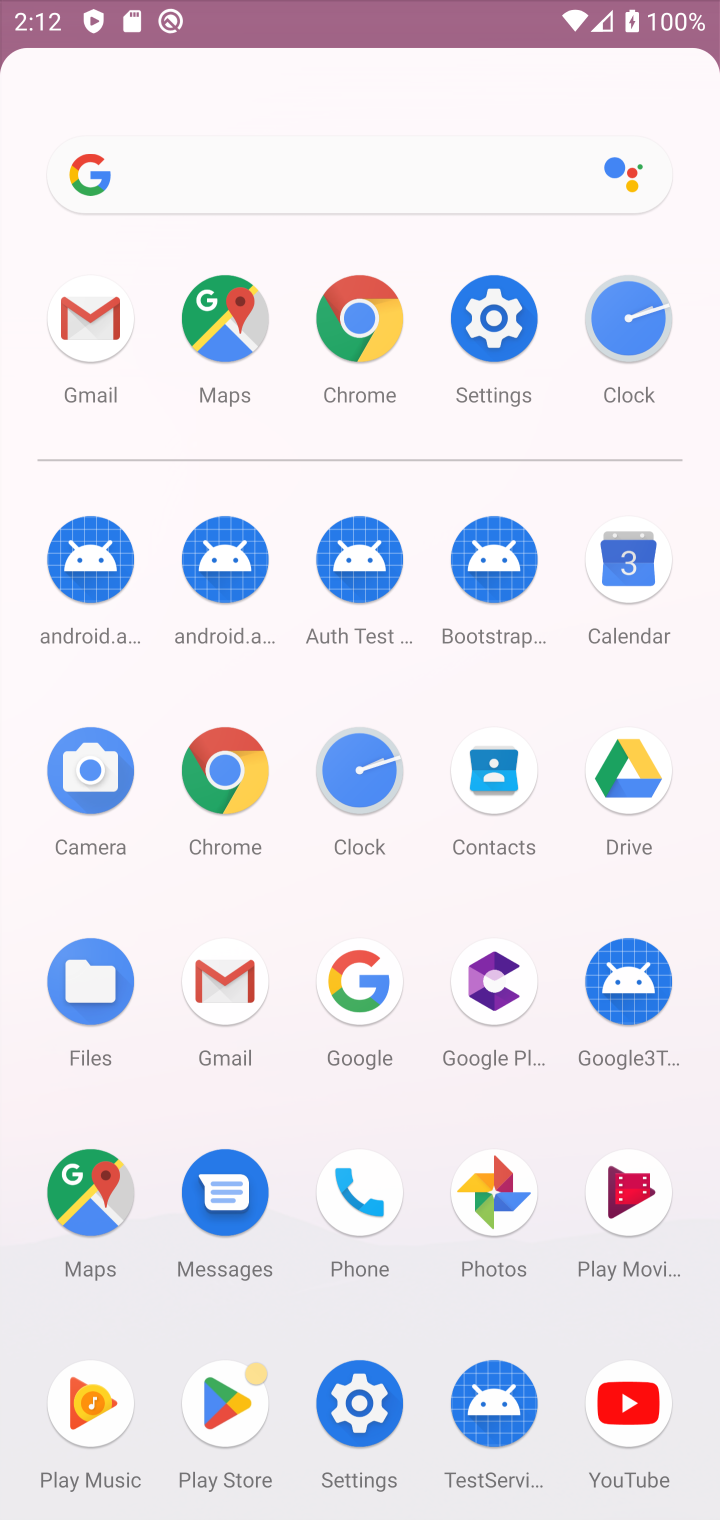
Step 25: drag from (323, 629) to (350, 297)
Your task to perform on an android device: turn on notifications settings in the gmail app Image 26: 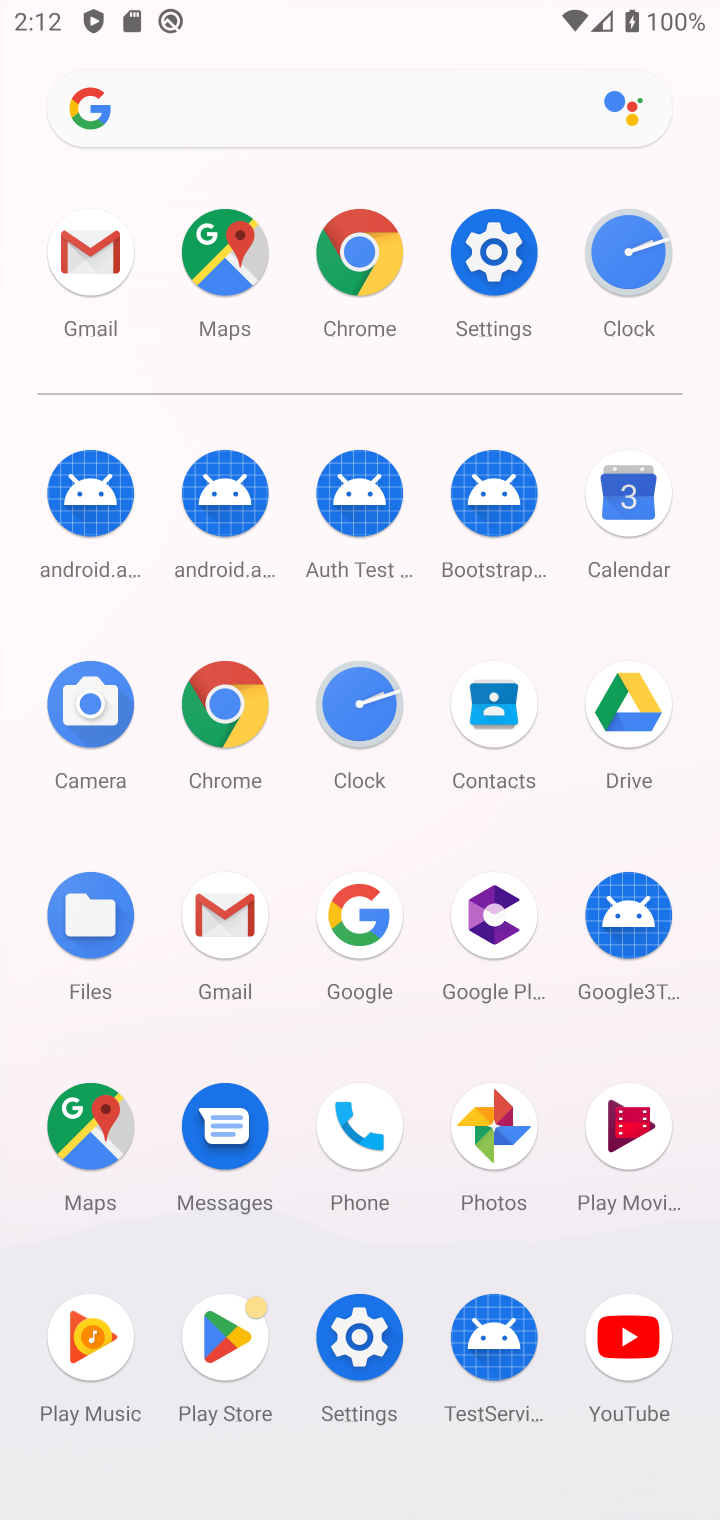
Step 26: click (210, 918)
Your task to perform on an android device: turn on notifications settings in the gmail app Image 27: 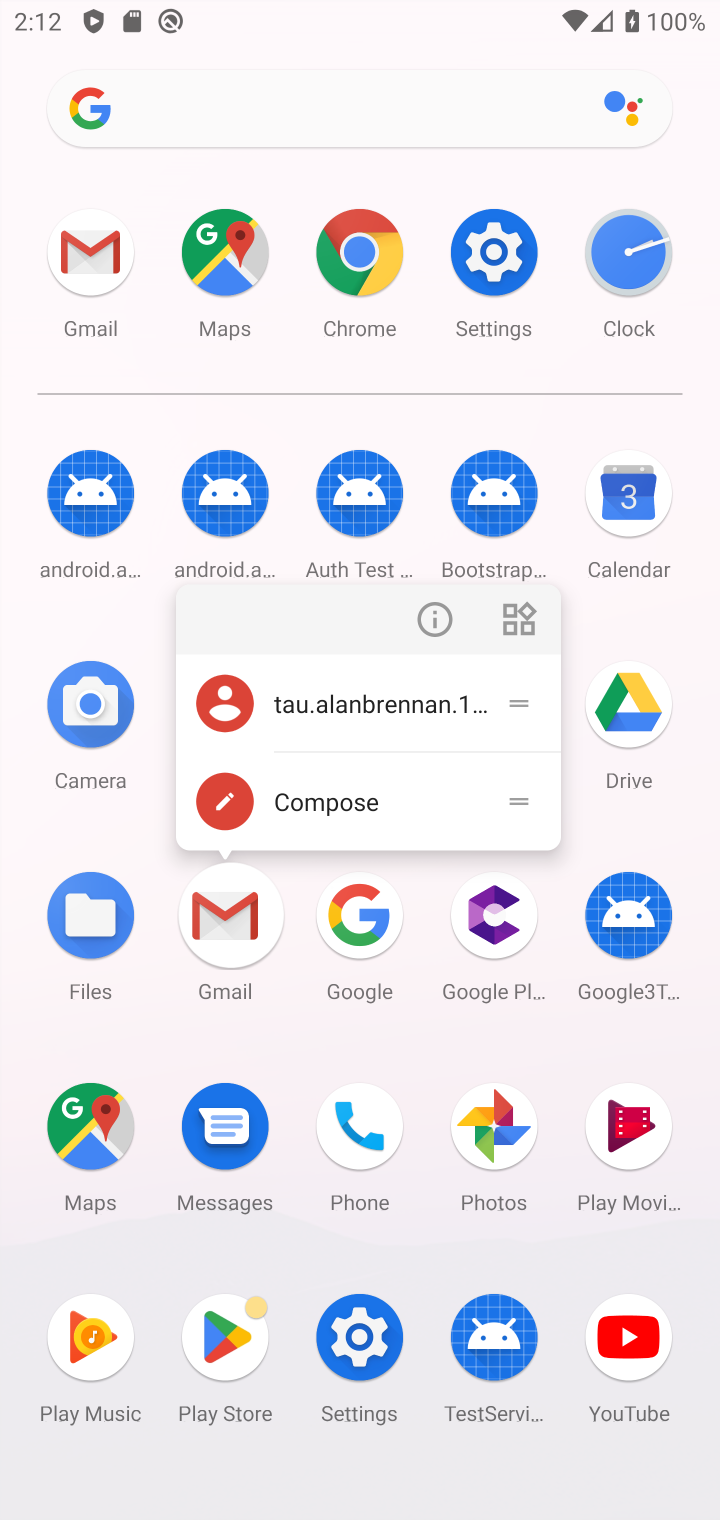
Step 27: click (218, 929)
Your task to perform on an android device: turn on notifications settings in the gmail app Image 28: 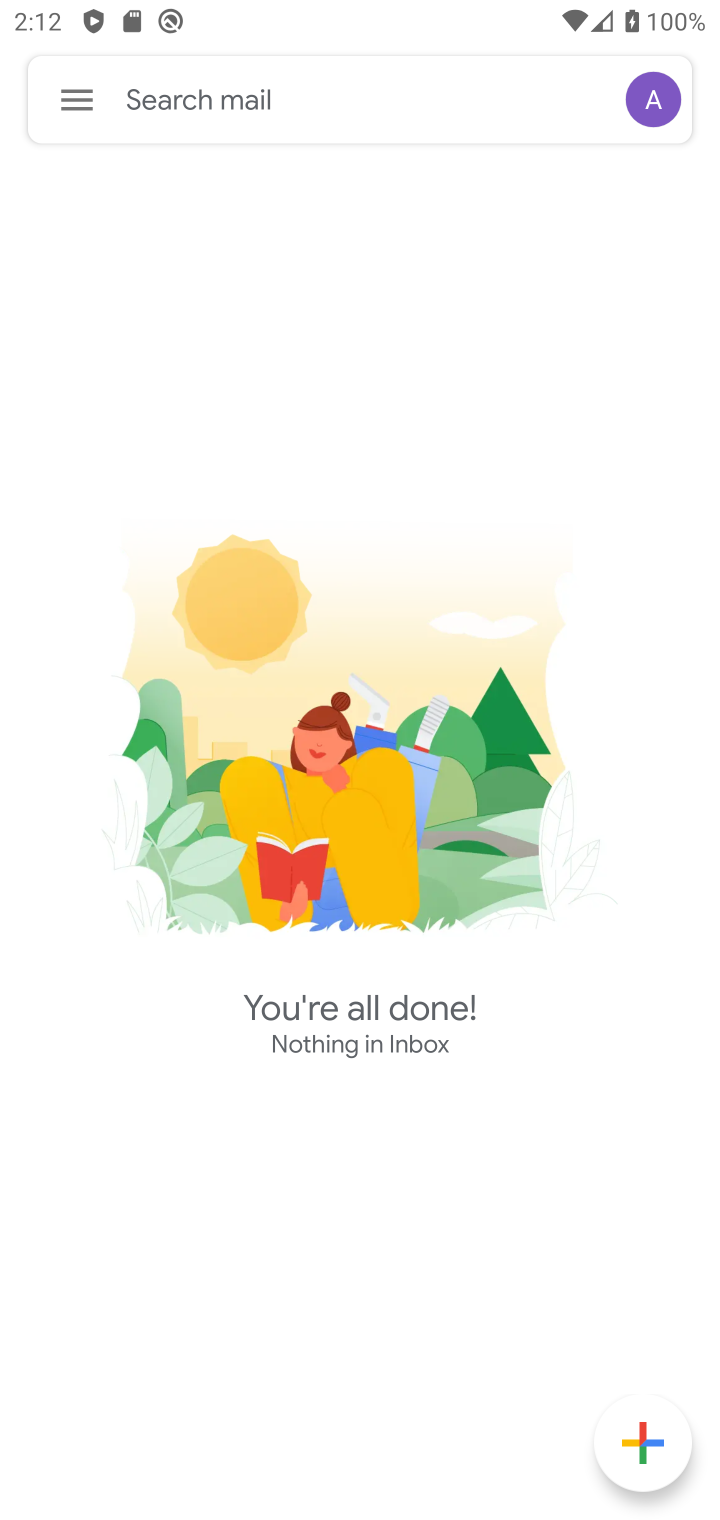
Step 28: click (80, 113)
Your task to perform on an android device: turn on notifications settings in the gmail app Image 29: 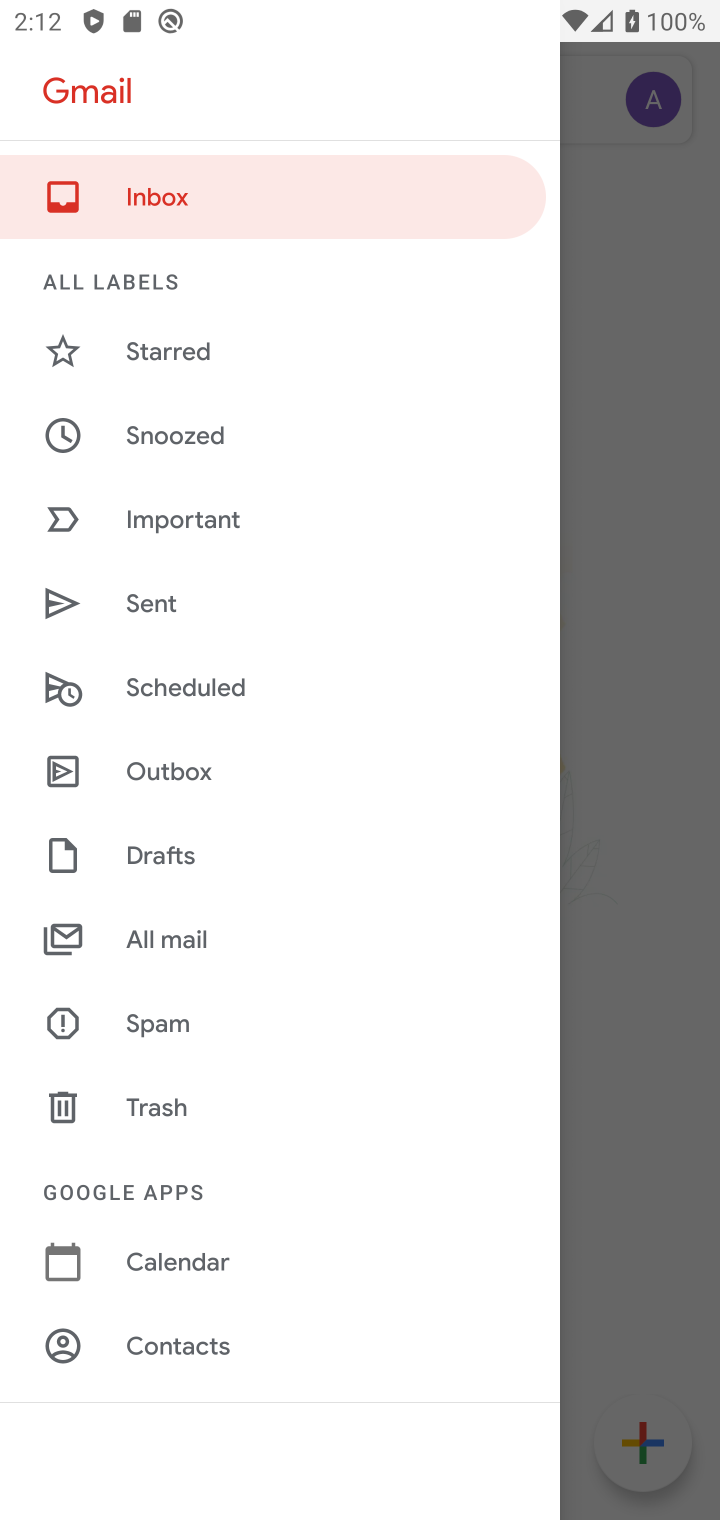
Step 29: click (636, 917)
Your task to perform on an android device: turn on notifications settings in the gmail app Image 30: 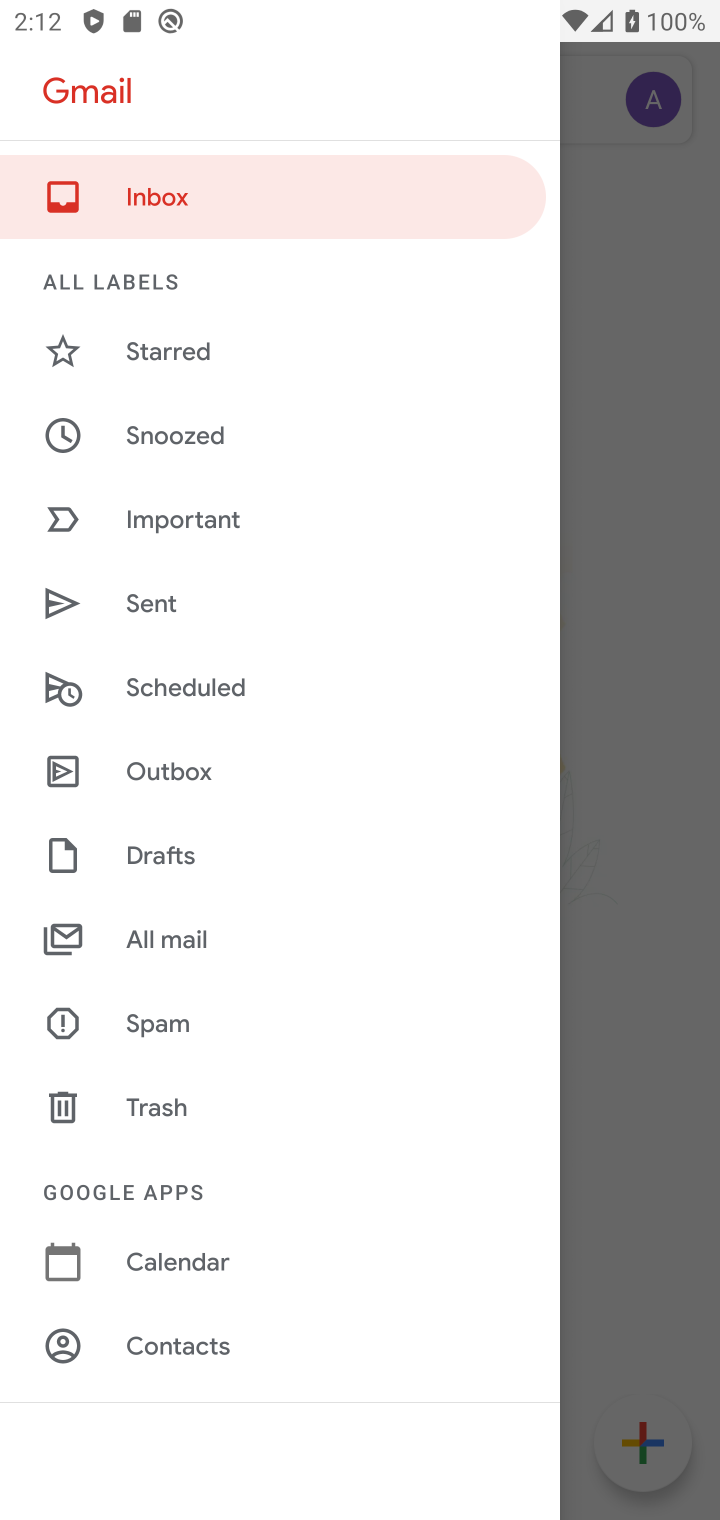
Step 30: click (636, 917)
Your task to perform on an android device: turn on notifications settings in the gmail app Image 31: 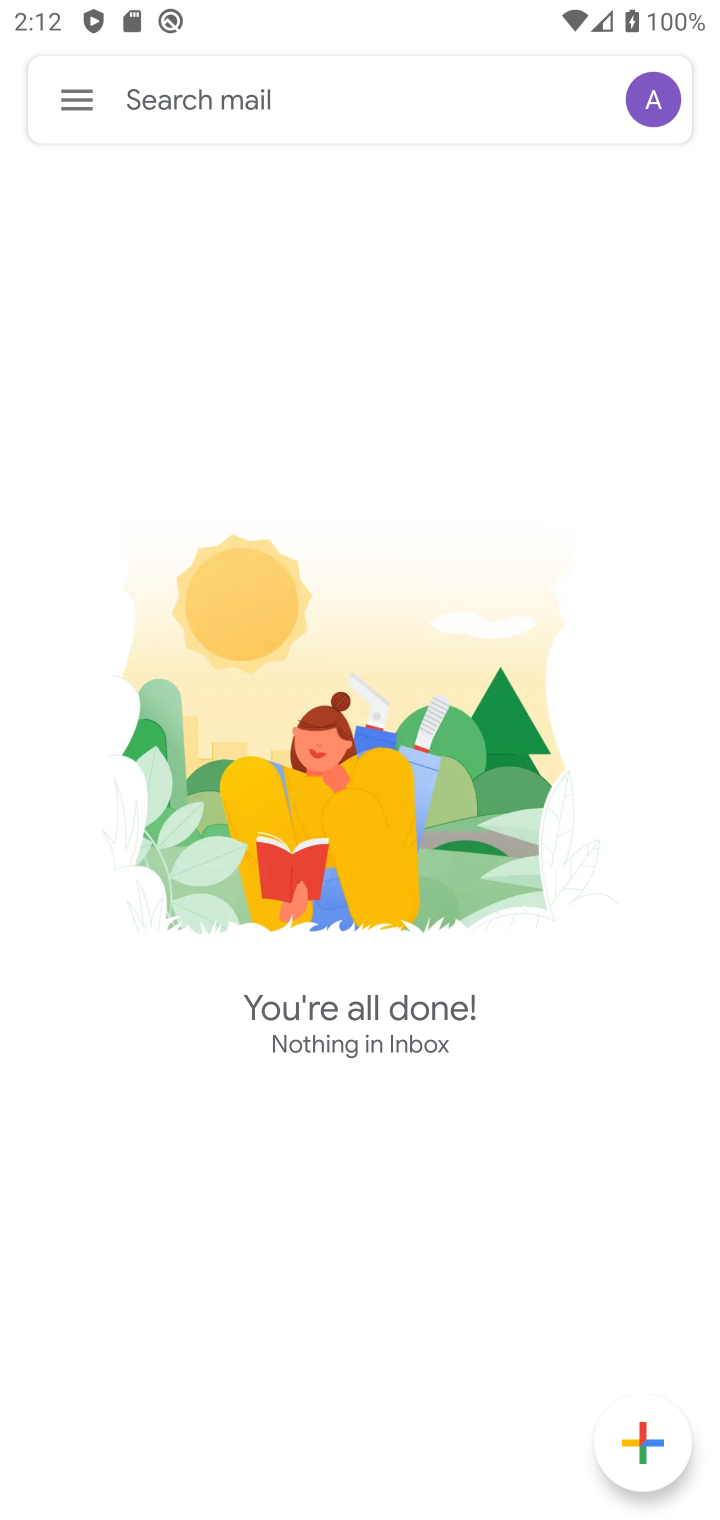
Step 31: click (79, 96)
Your task to perform on an android device: turn on notifications settings in the gmail app Image 32: 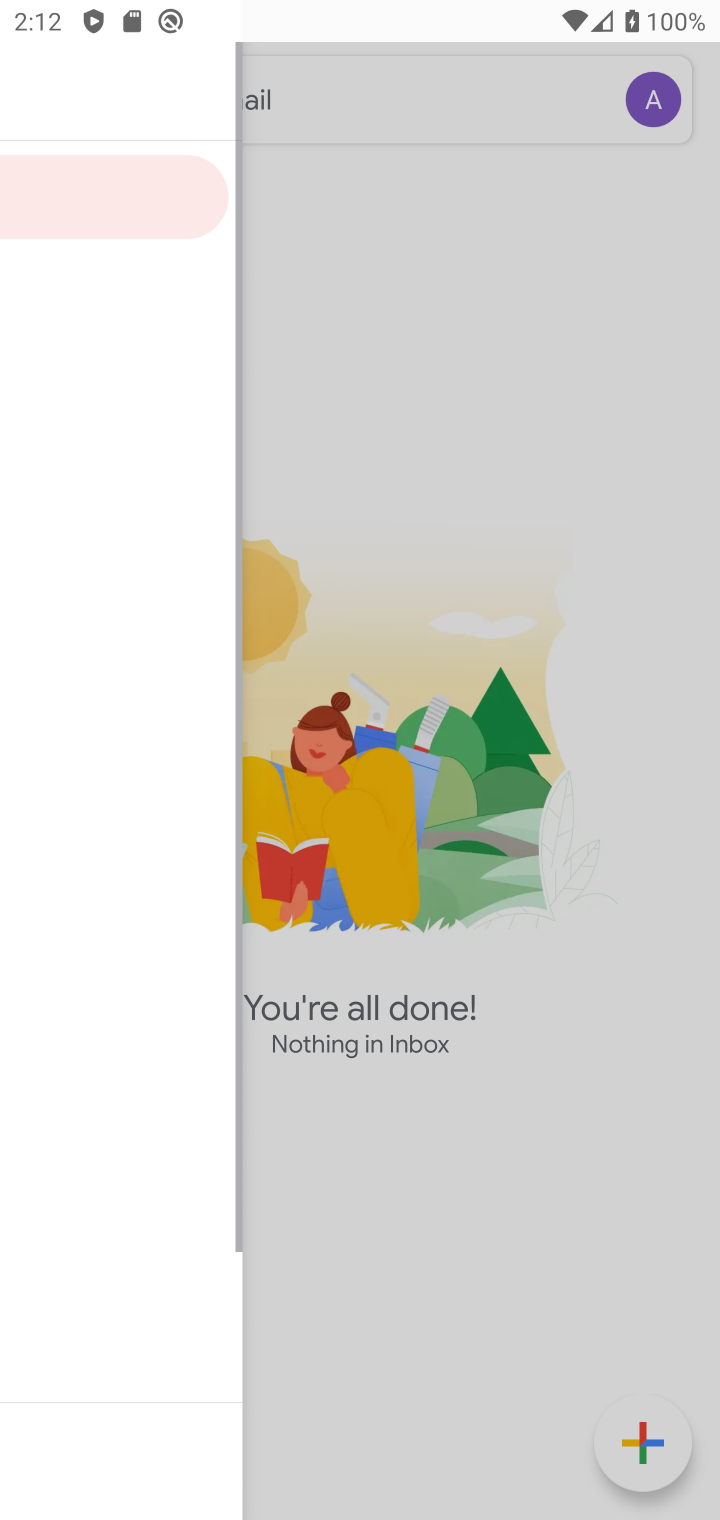
Step 32: click (79, 96)
Your task to perform on an android device: turn on notifications settings in the gmail app Image 33: 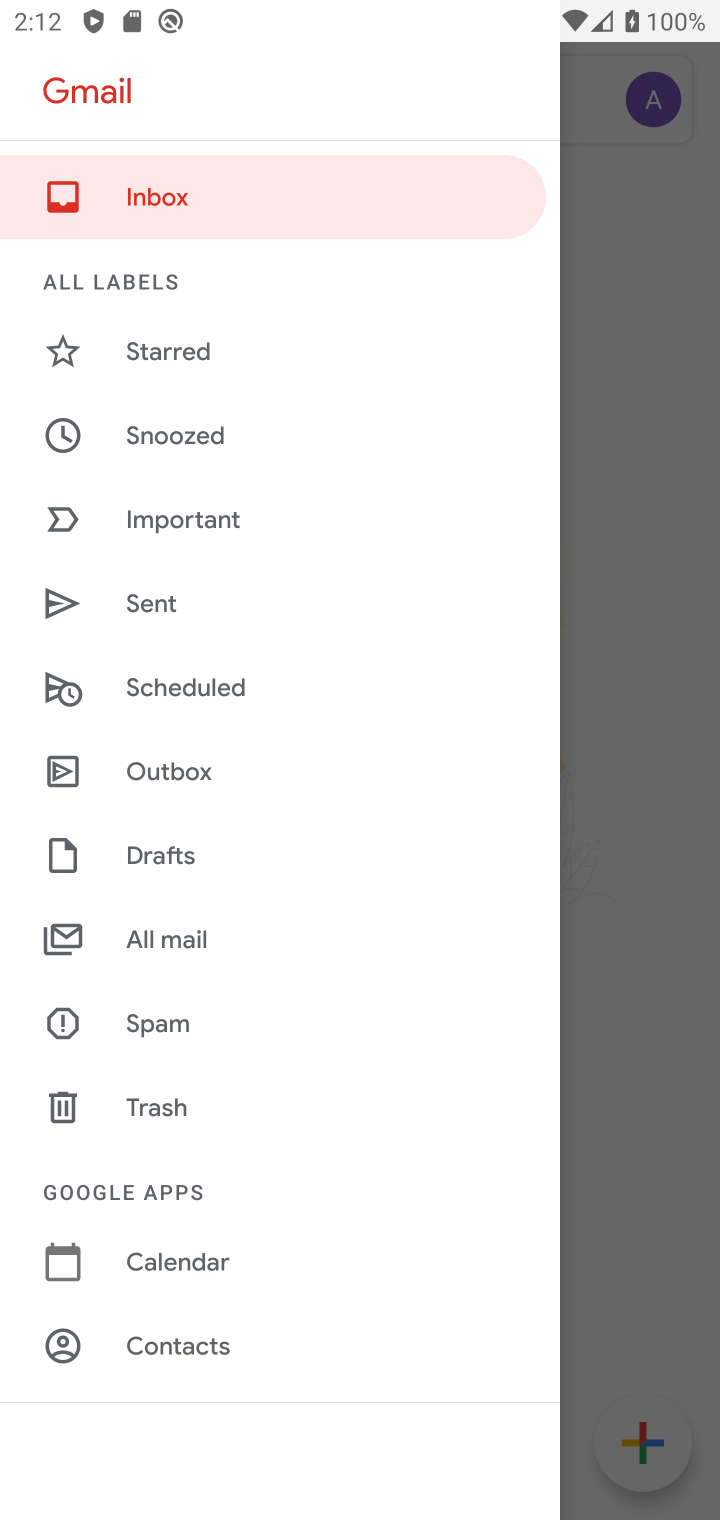
Step 33: click (608, 719)
Your task to perform on an android device: turn on notifications settings in the gmail app Image 34: 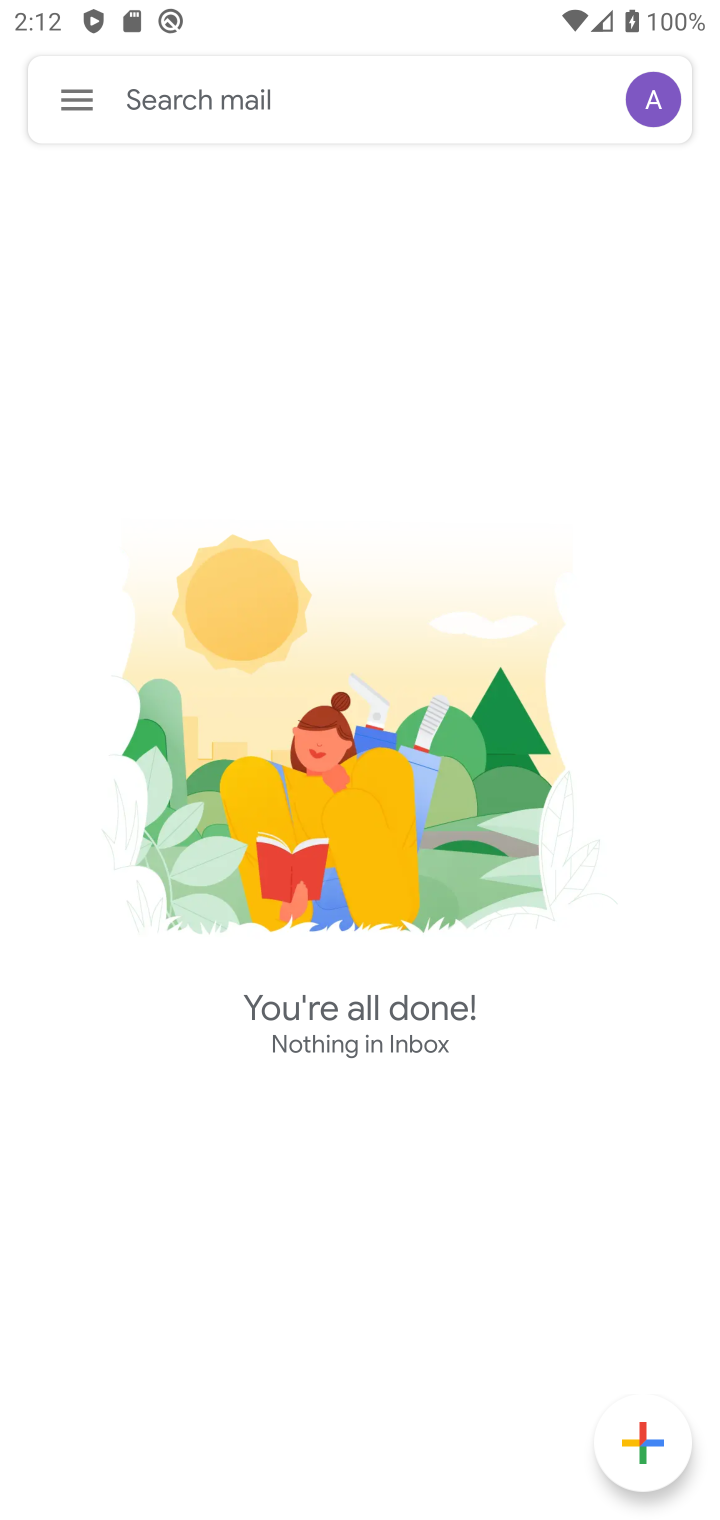
Step 34: click (87, 126)
Your task to perform on an android device: turn on notifications settings in the gmail app Image 35: 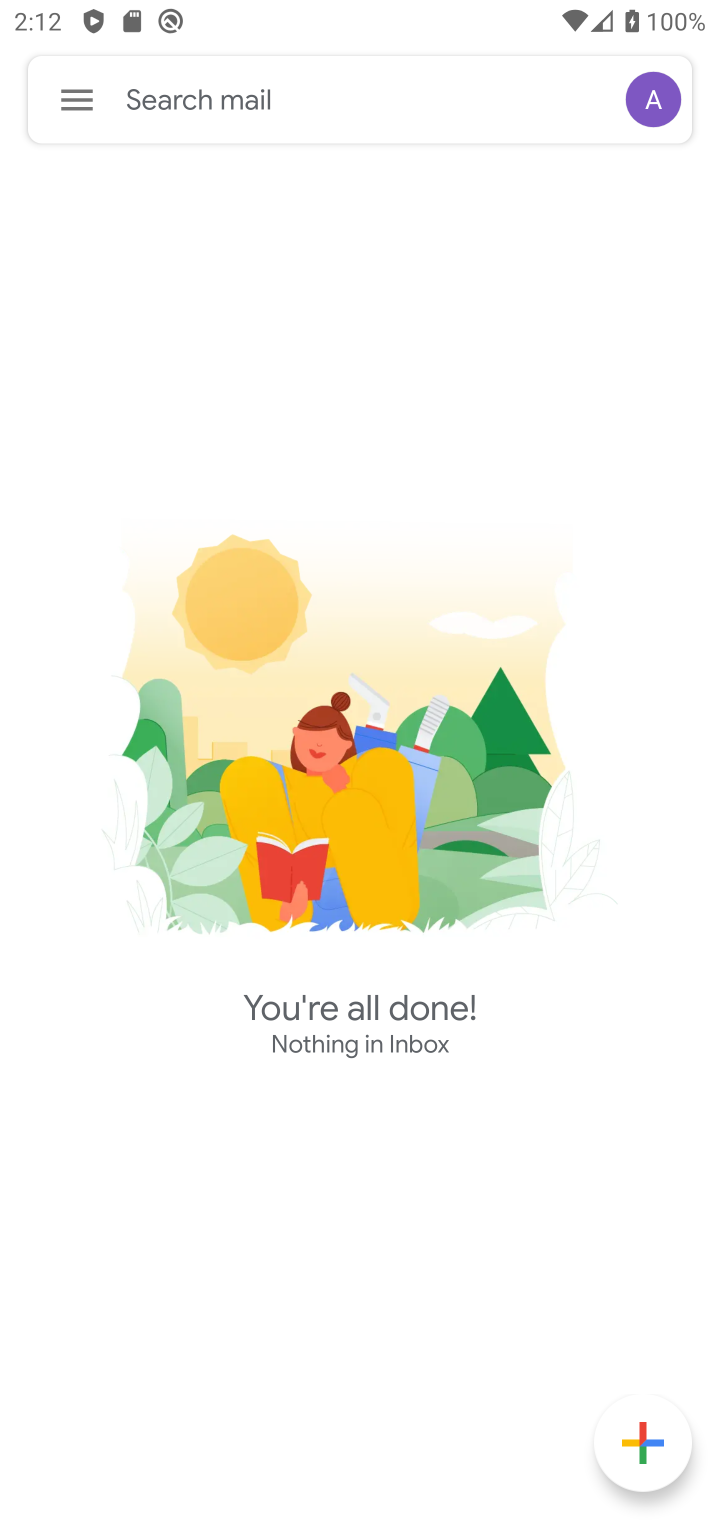
Step 35: click (70, 127)
Your task to perform on an android device: turn on notifications settings in the gmail app Image 36: 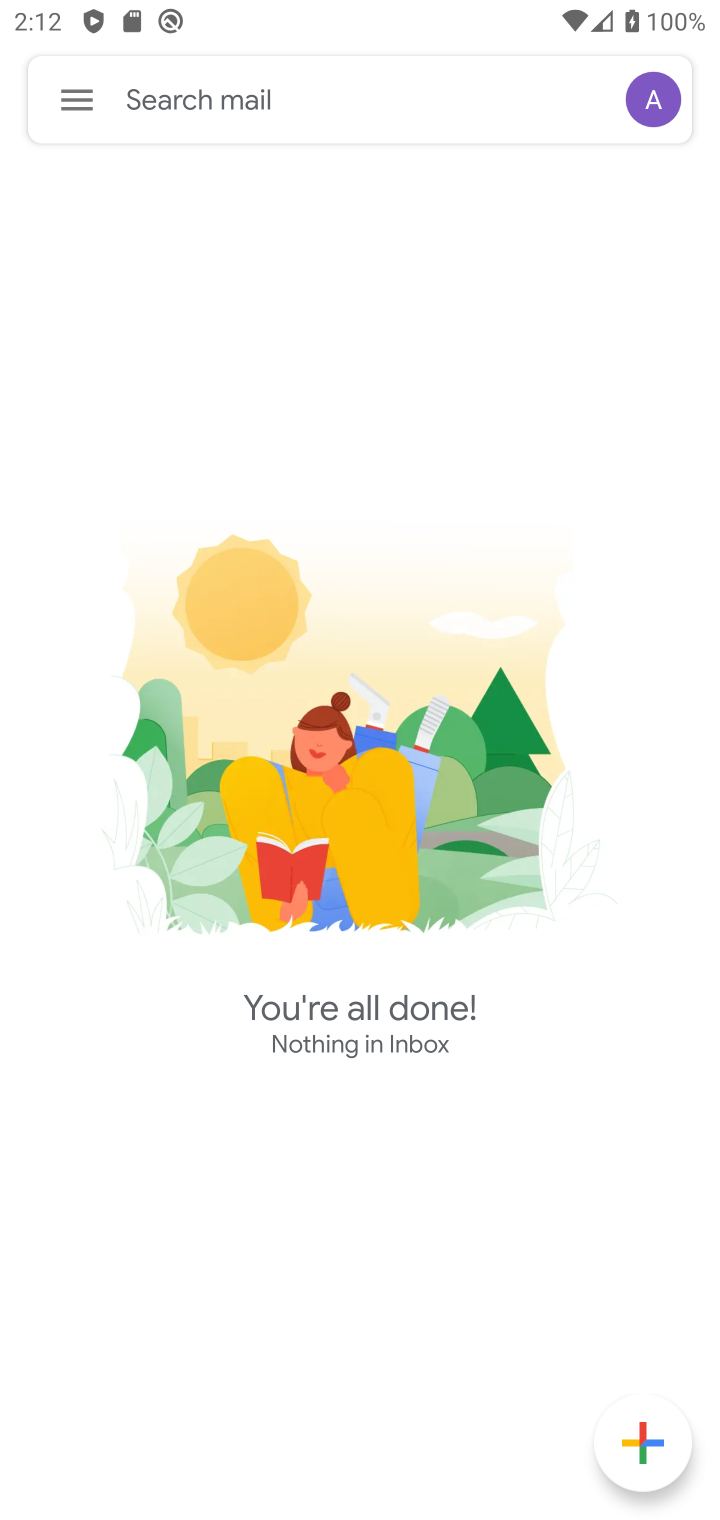
Step 36: drag from (79, 106) to (306, 700)
Your task to perform on an android device: turn on notifications settings in the gmail app Image 37: 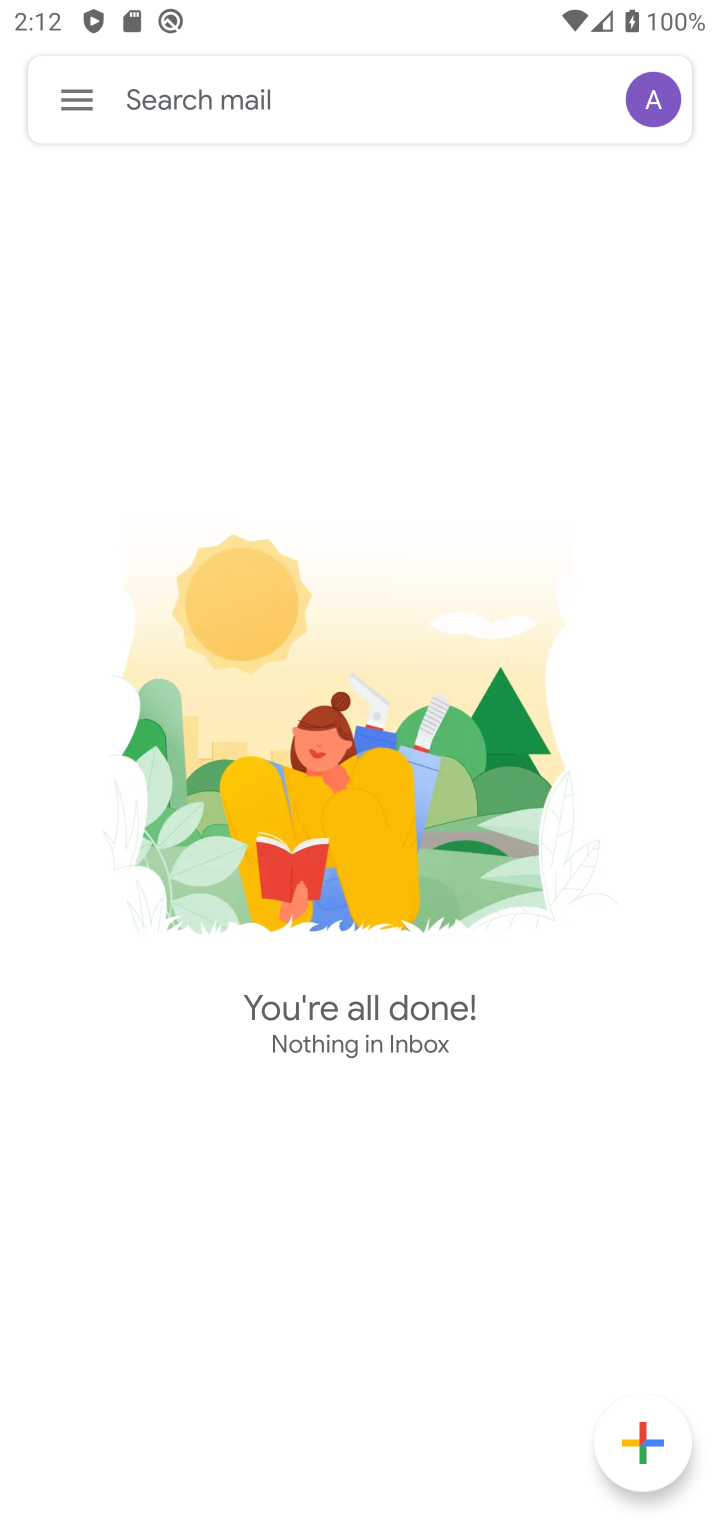
Step 37: click (68, 89)
Your task to perform on an android device: turn on notifications settings in the gmail app Image 38: 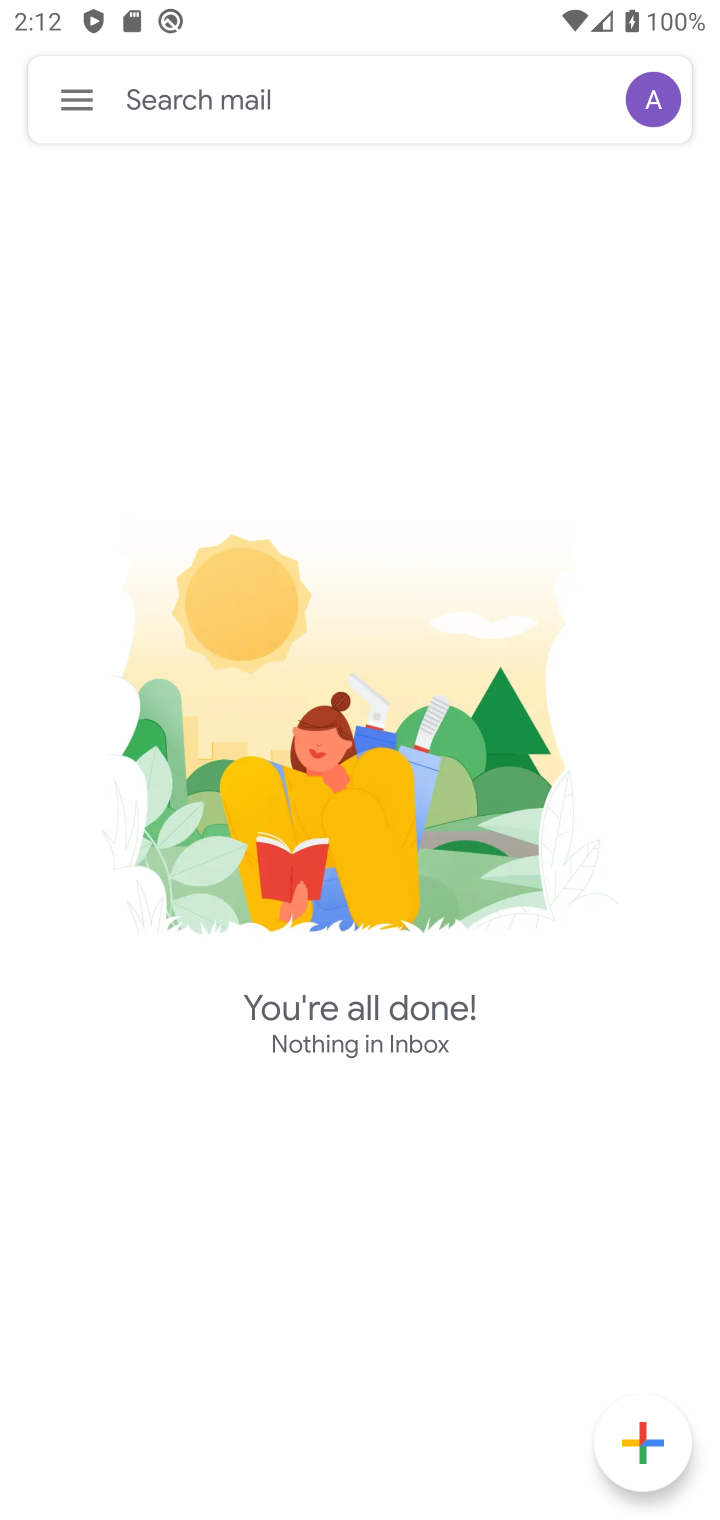
Step 38: click (82, 104)
Your task to perform on an android device: turn on notifications settings in the gmail app Image 39: 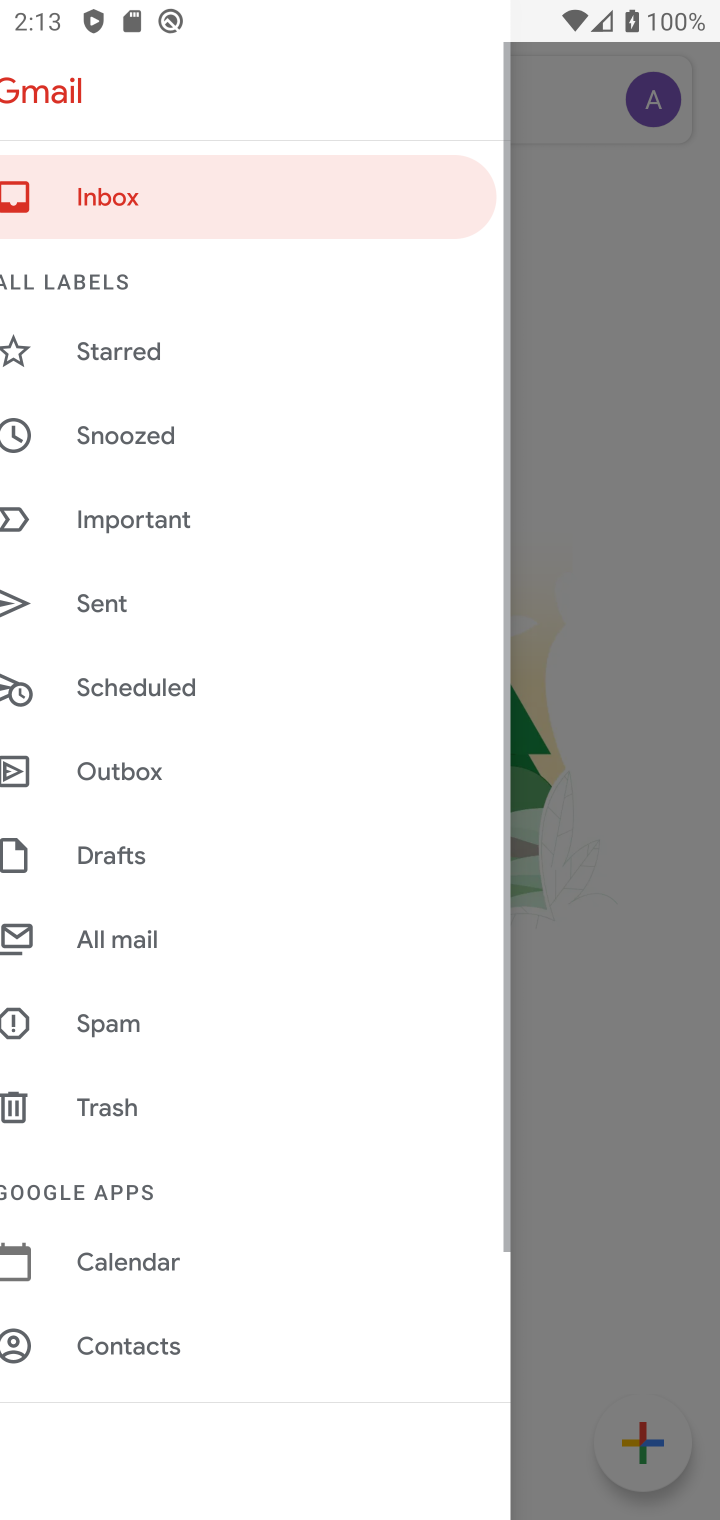
Step 39: click (82, 106)
Your task to perform on an android device: turn on notifications settings in the gmail app Image 40: 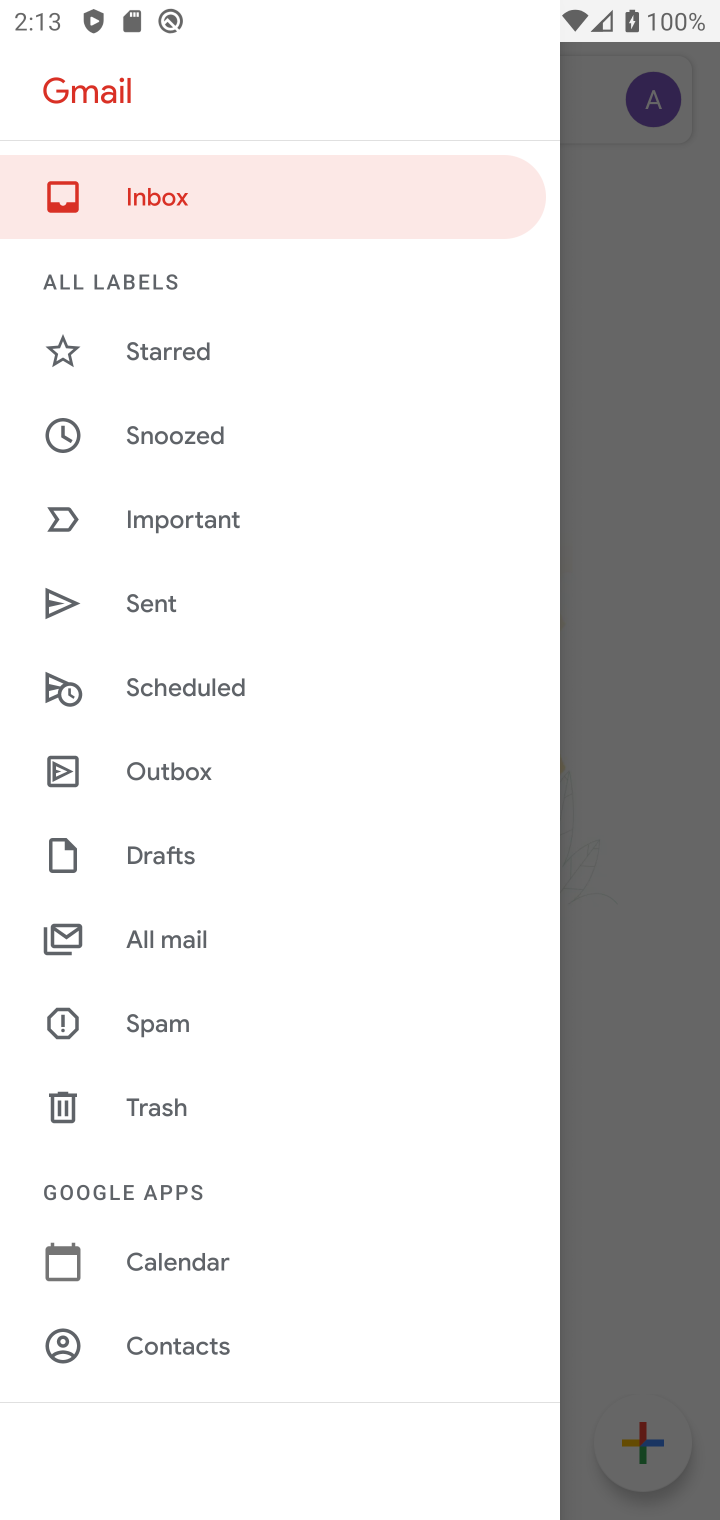
Step 40: drag from (173, 1301) to (181, 262)
Your task to perform on an android device: turn on notifications settings in the gmail app Image 41: 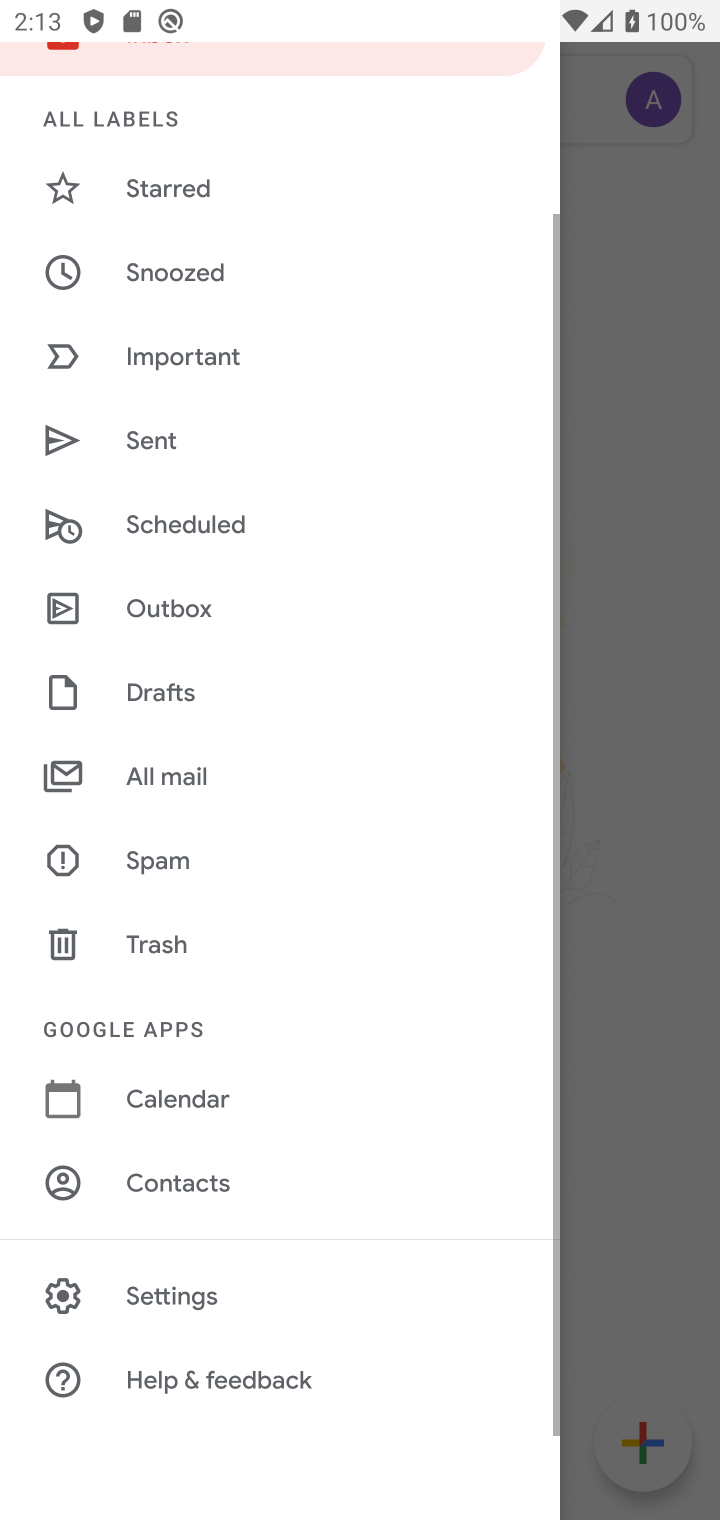
Step 41: click (213, 352)
Your task to perform on an android device: turn on notifications settings in the gmail app Image 42: 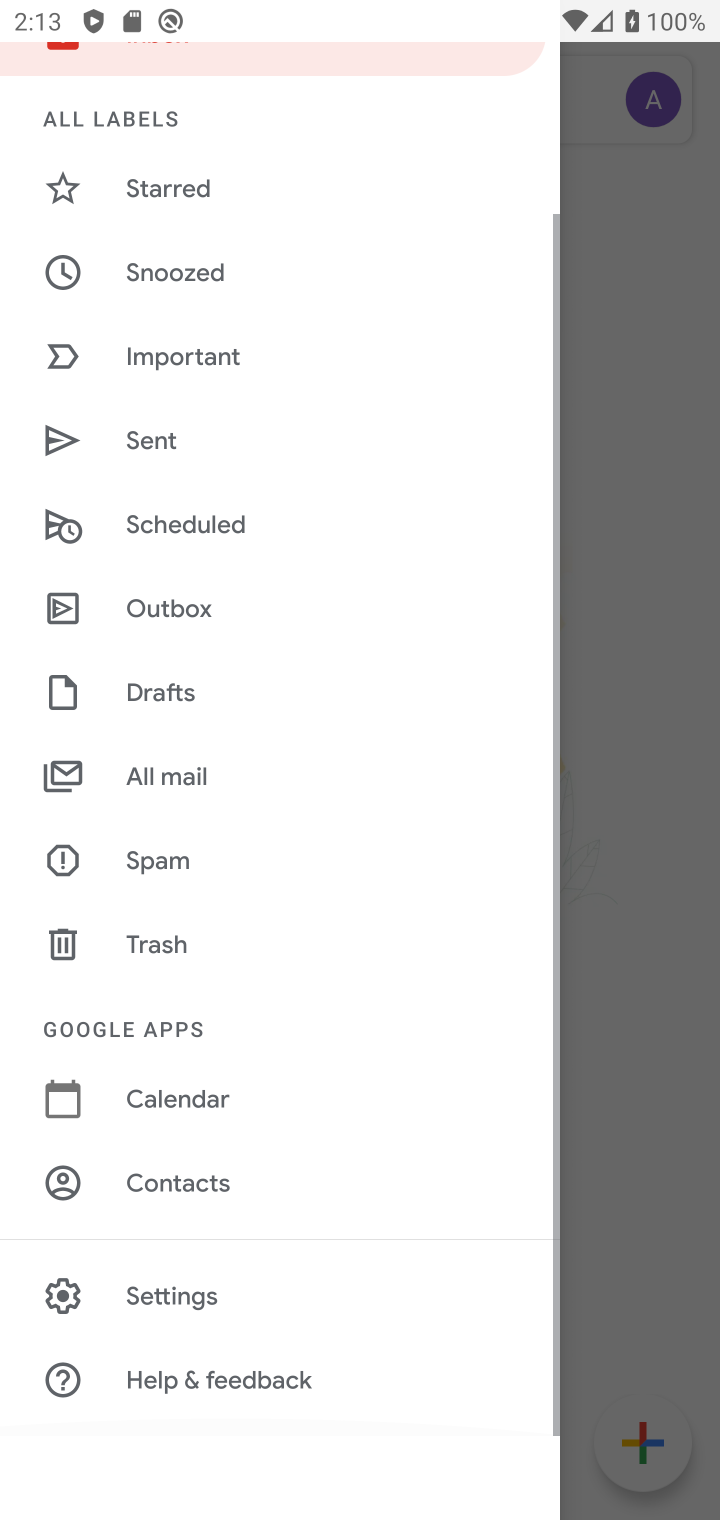
Step 42: drag from (99, 314) to (96, 106)
Your task to perform on an android device: turn on notifications settings in the gmail app Image 43: 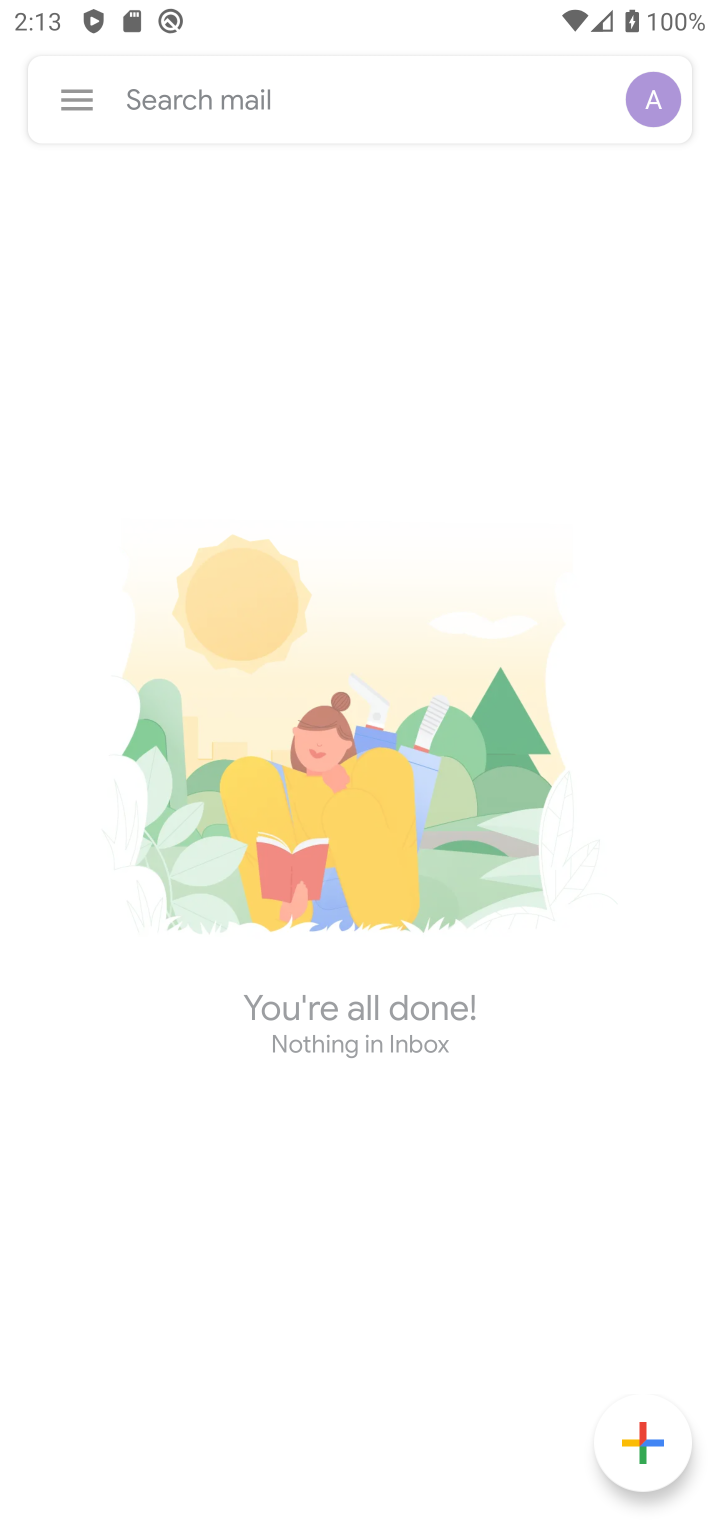
Step 43: click (168, 1293)
Your task to perform on an android device: turn on notifications settings in the gmail app Image 44: 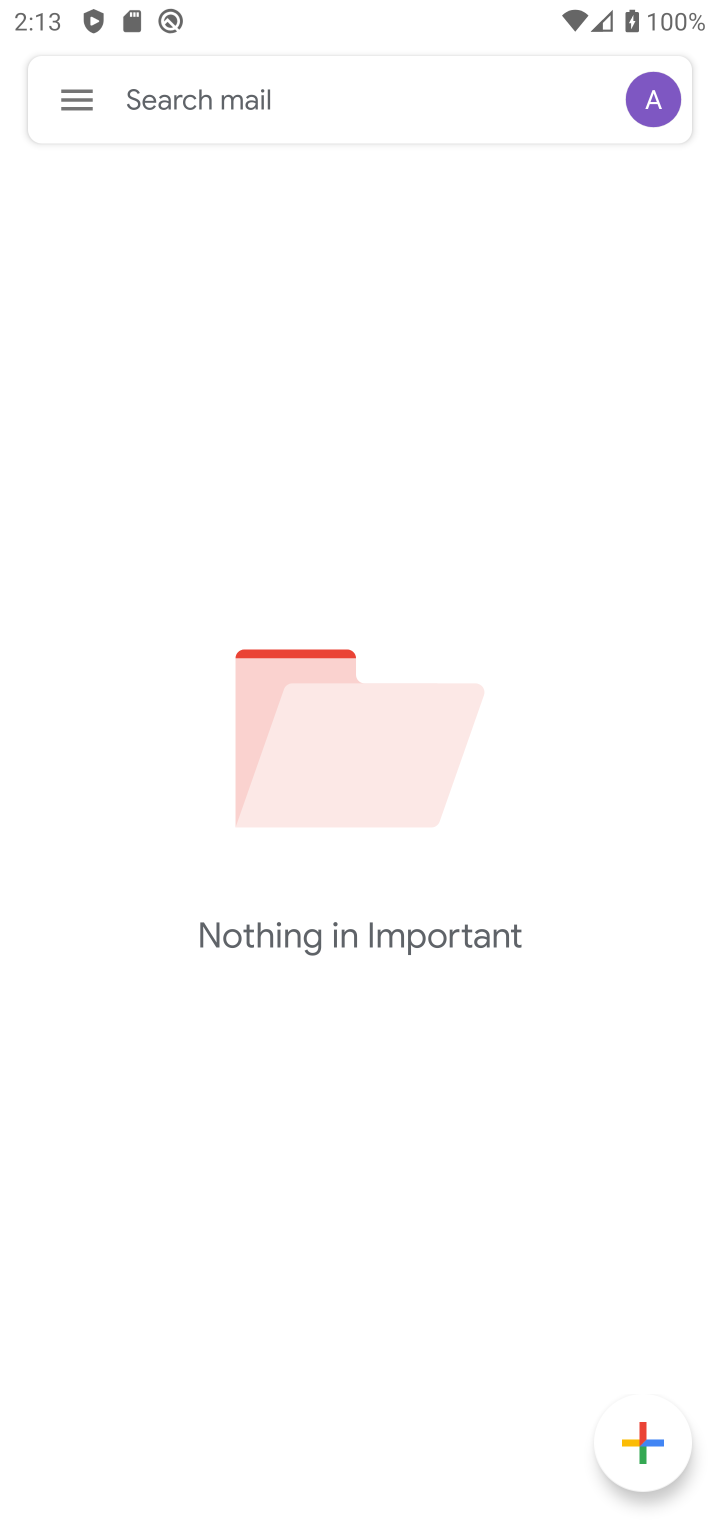
Step 44: click (65, 111)
Your task to perform on an android device: turn on notifications settings in the gmail app Image 45: 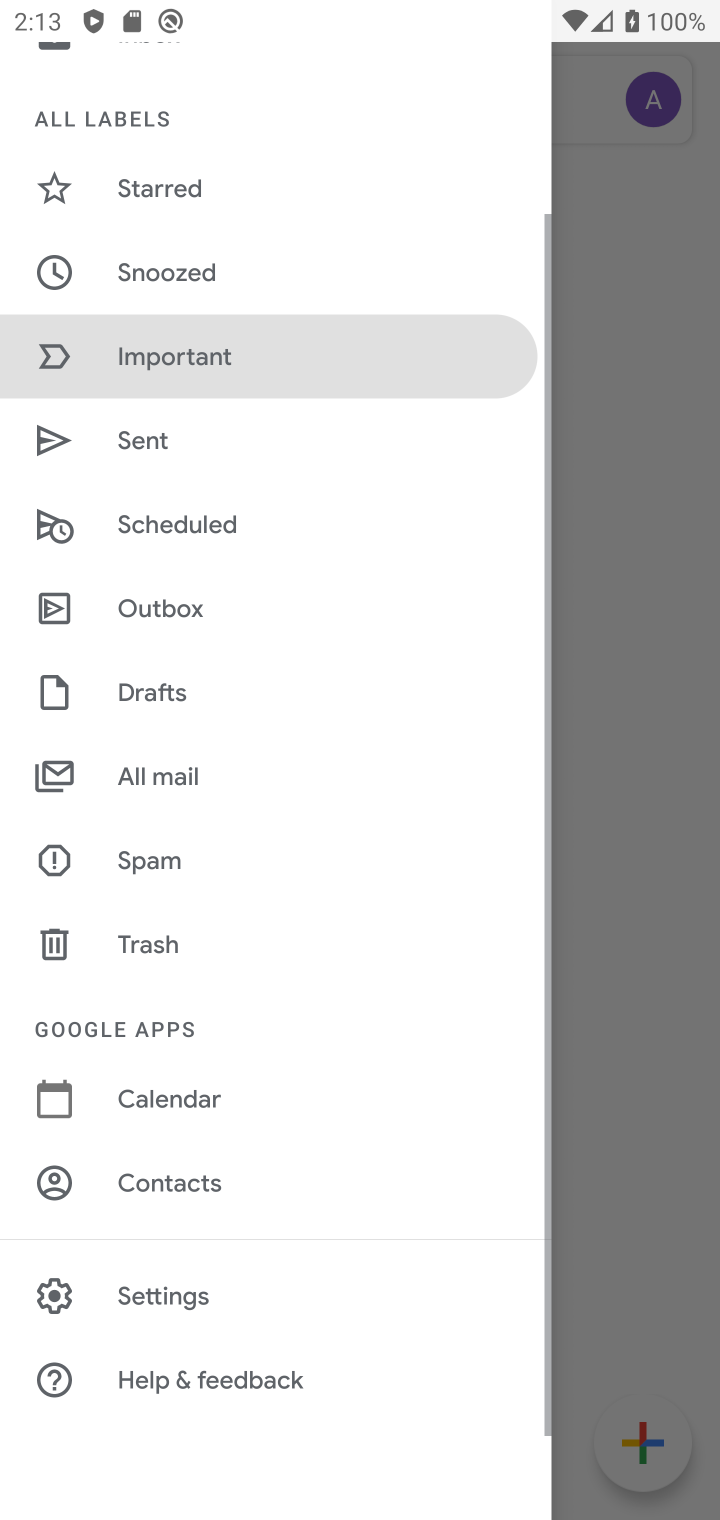
Step 45: click (65, 99)
Your task to perform on an android device: turn on notifications settings in the gmail app Image 46: 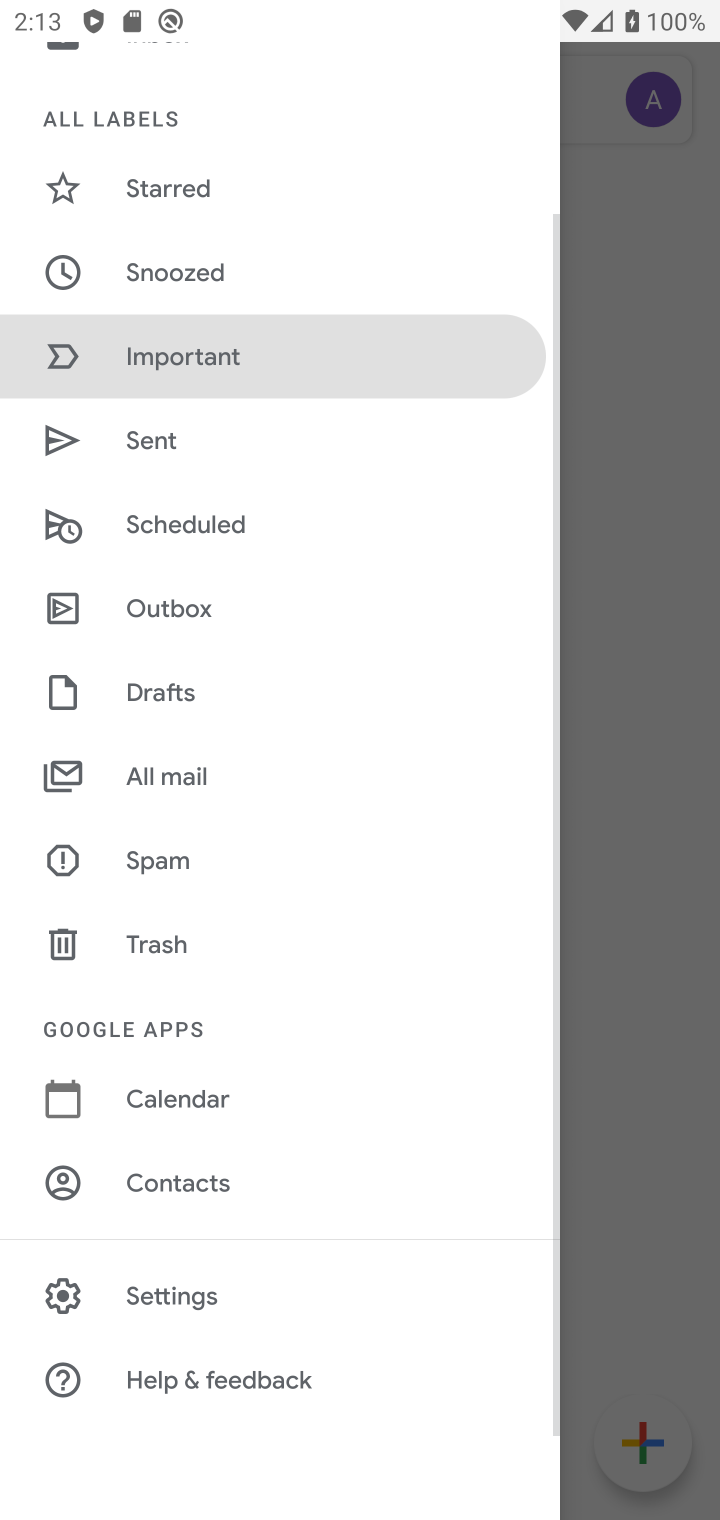
Step 46: click (155, 1290)
Your task to perform on an android device: turn on notifications settings in the gmail app Image 47: 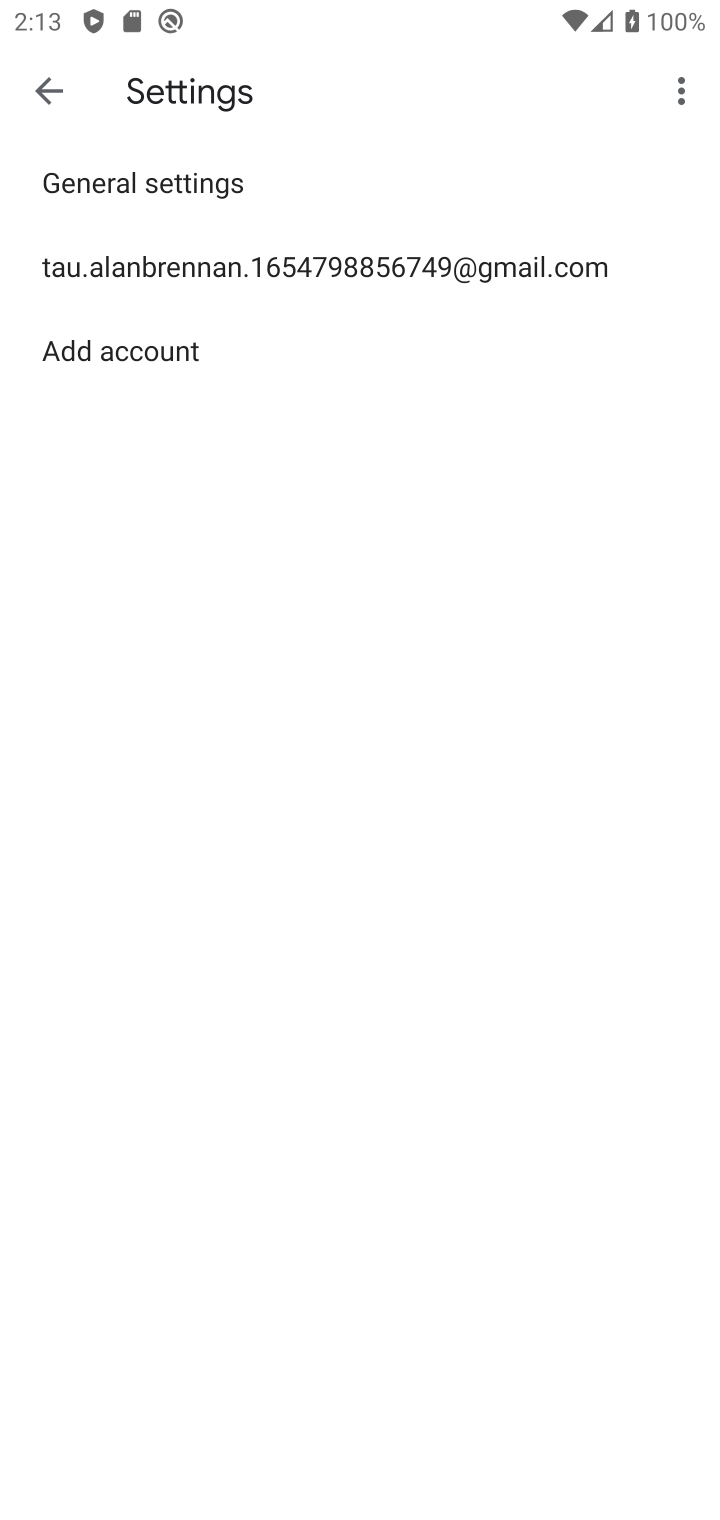
Step 47: click (156, 250)
Your task to perform on an android device: turn on notifications settings in the gmail app Image 48: 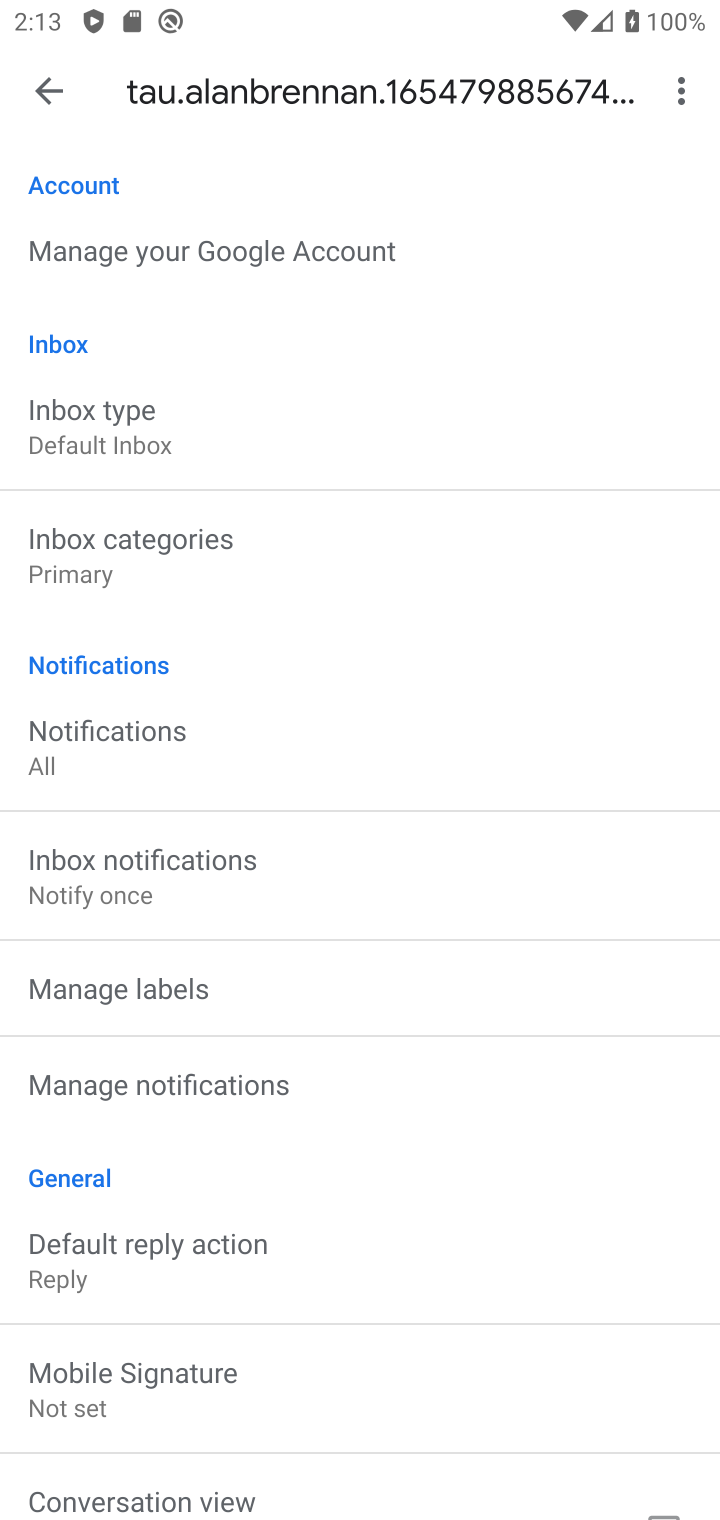
Step 48: task complete